Your task to perform on an android device: Open my contact list Image 0: 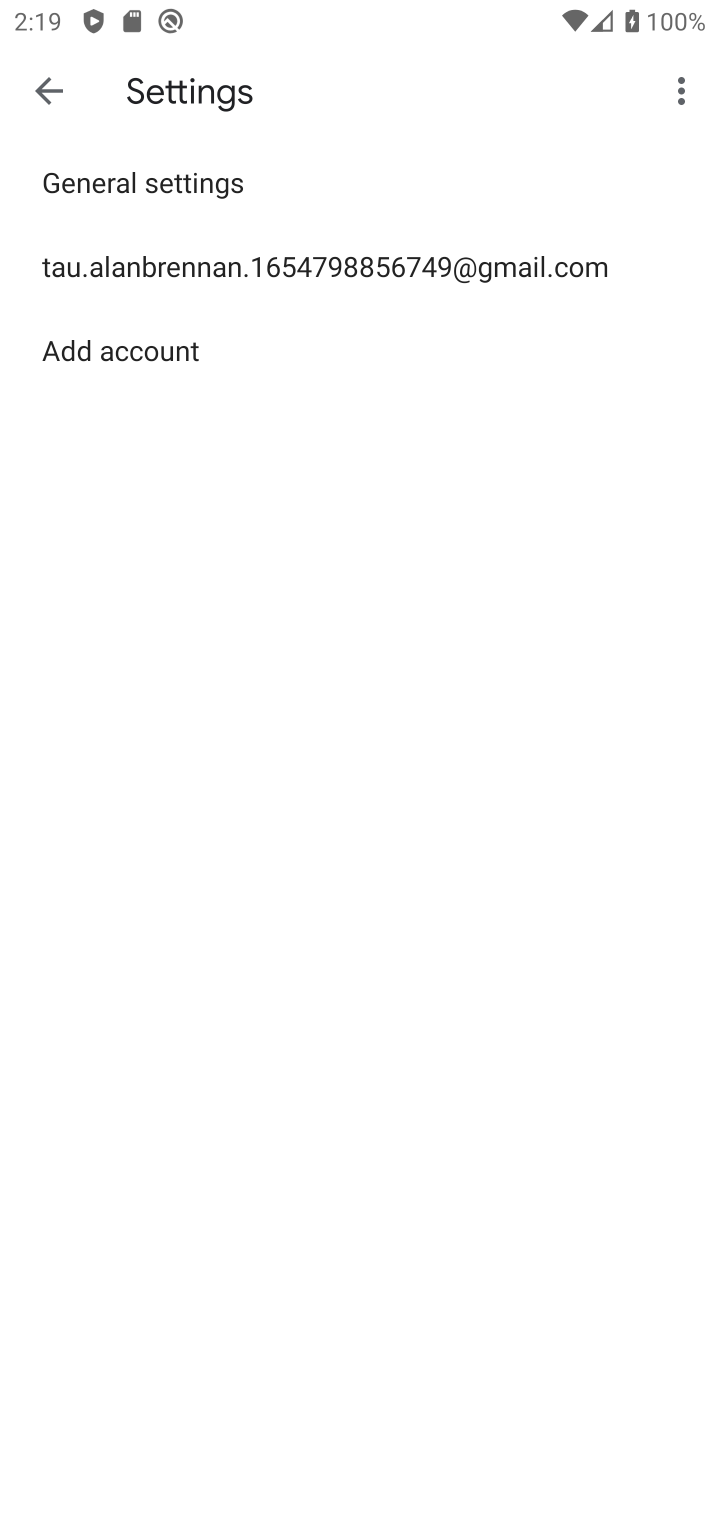
Step 0: click (44, 85)
Your task to perform on an android device: Open my contact list Image 1: 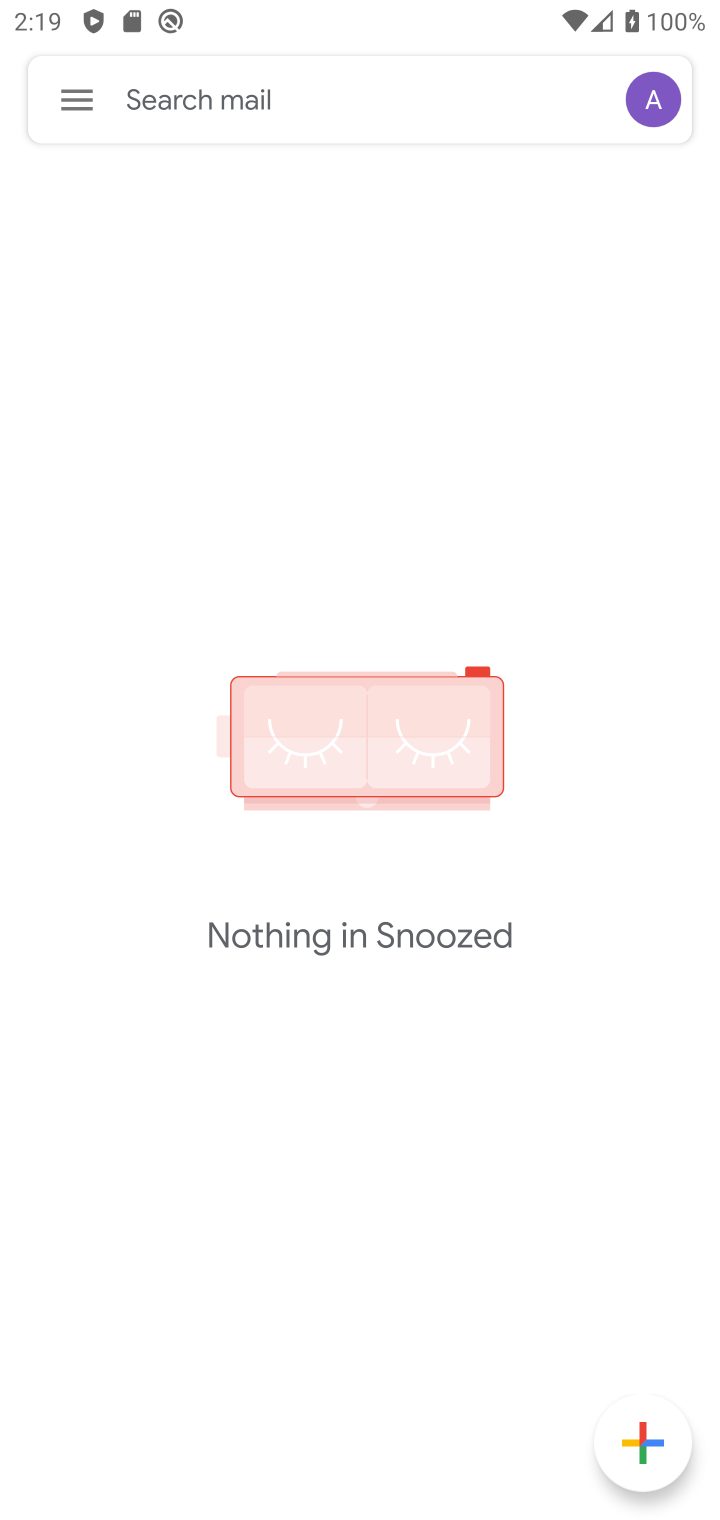
Step 1: press back button
Your task to perform on an android device: Open my contact list Image 2: 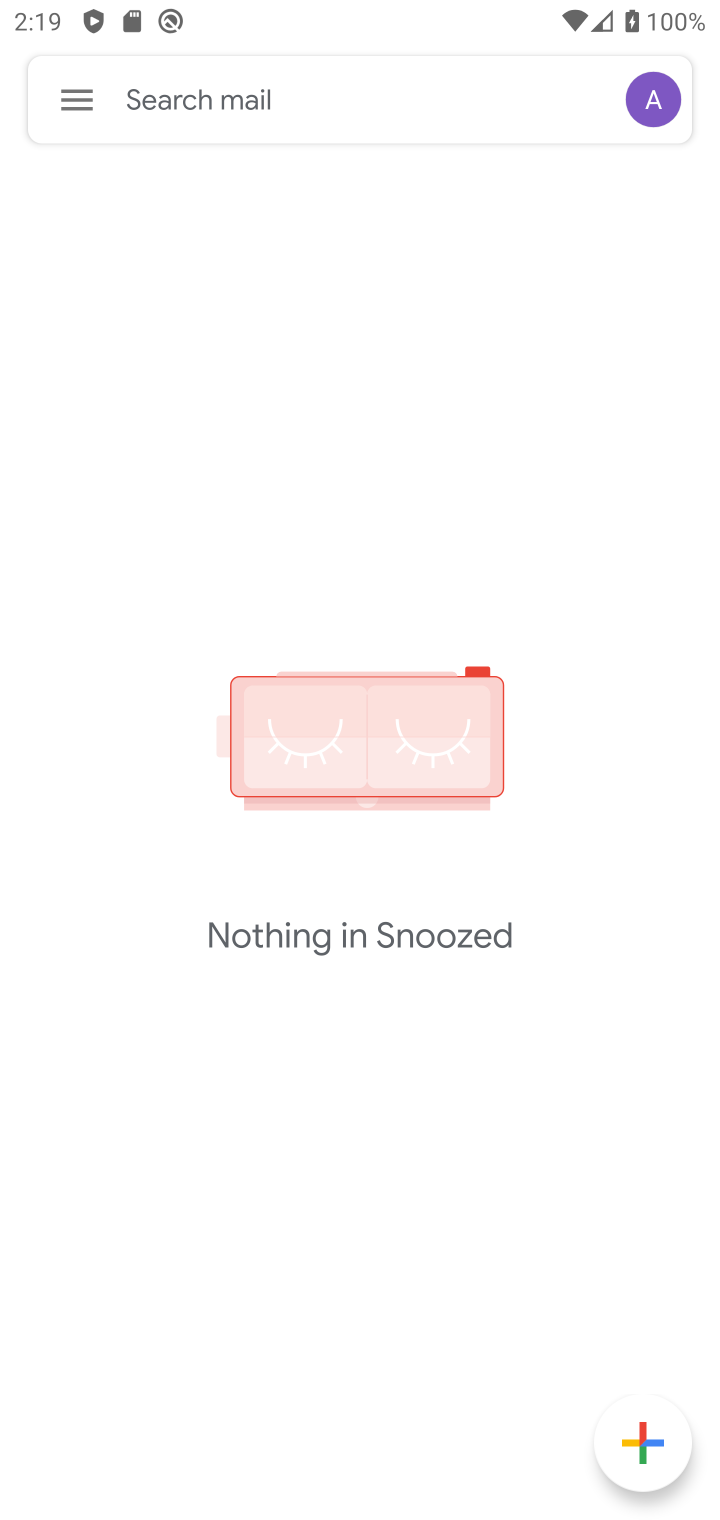
Step 2: press back button
Your task to perform on an android device: Open my contact list Image 3: 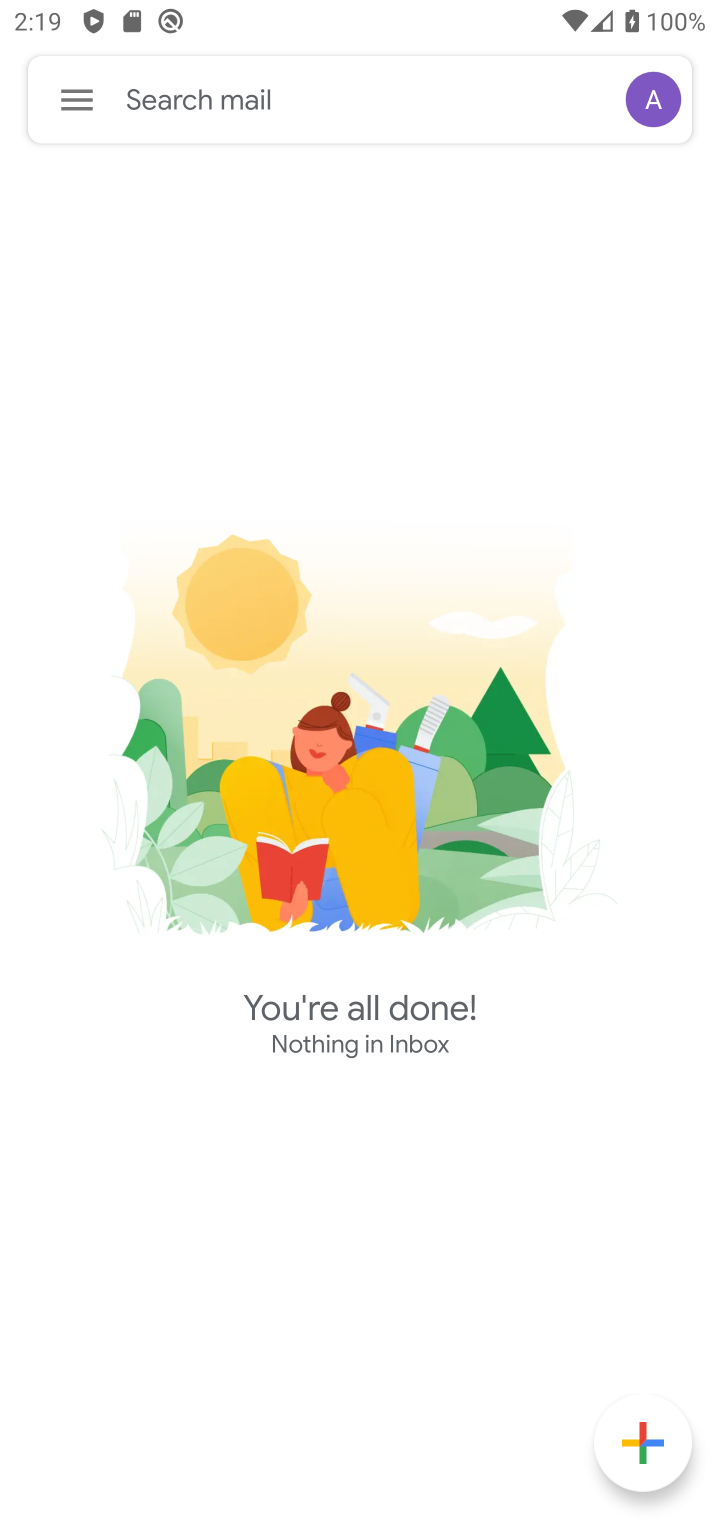
Step 3: press back button
Your task to perform on an android device: Open my contact list Image 4: 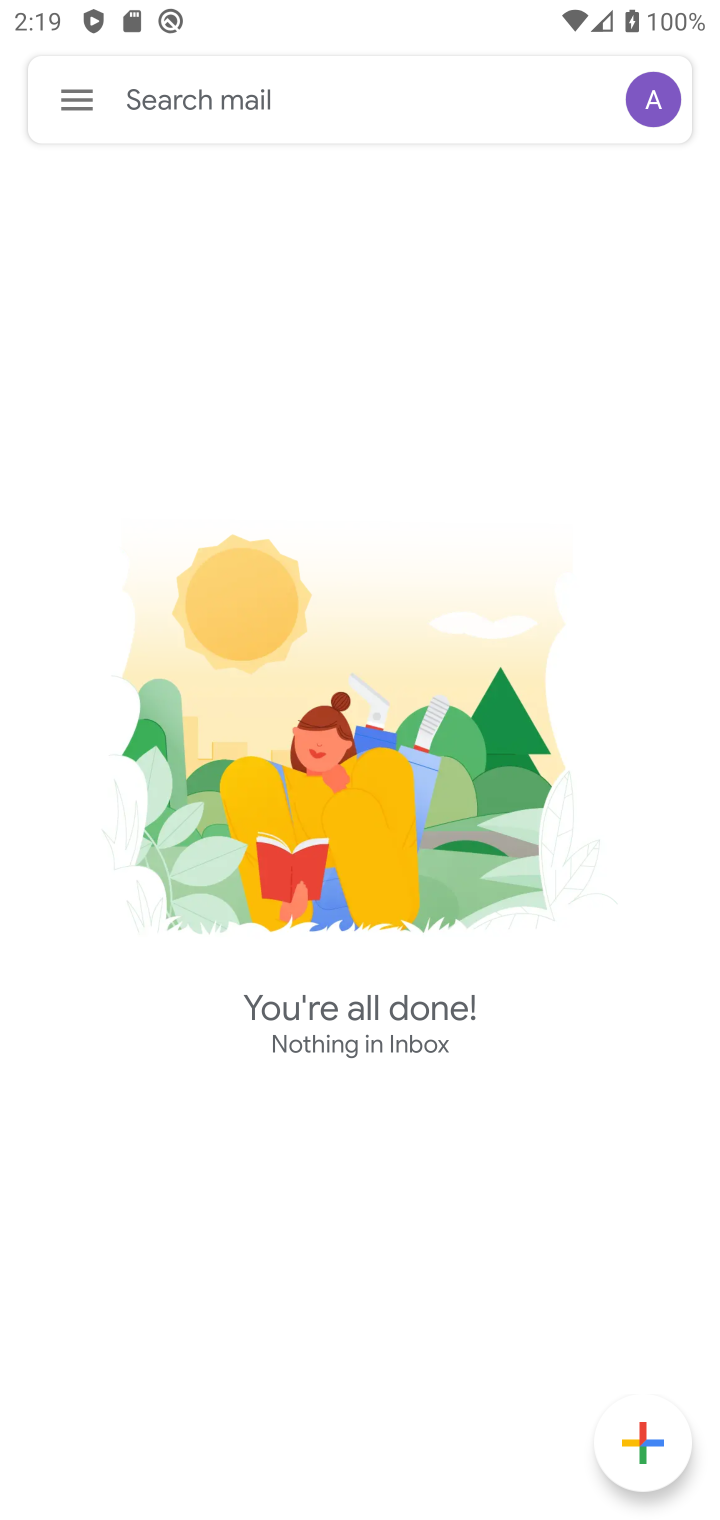
Step 4: click (70, 122)
Your task to perform on an android device: Open my contact list Image 5: 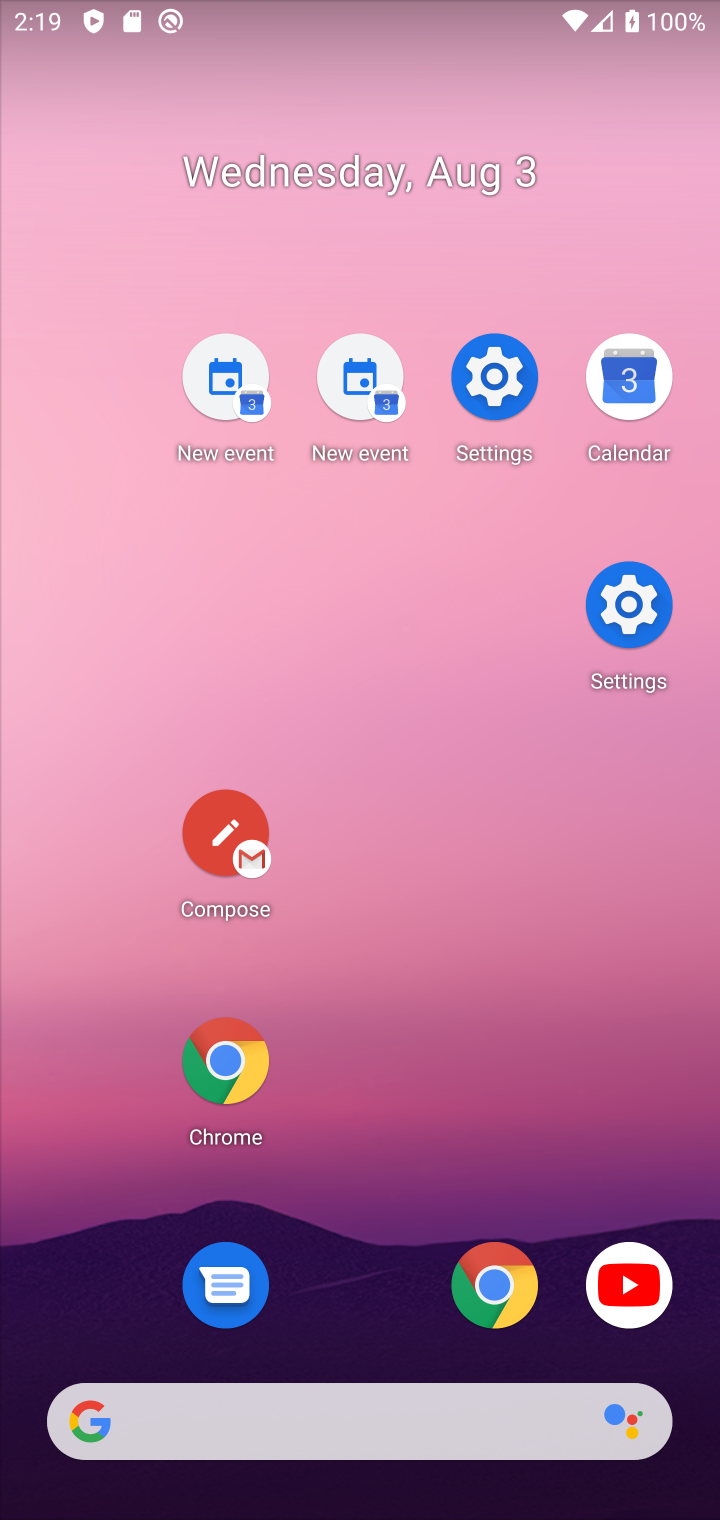
Step 5: click (270, 760)
Your task to perform on an android device: Open my contact list Image 6: 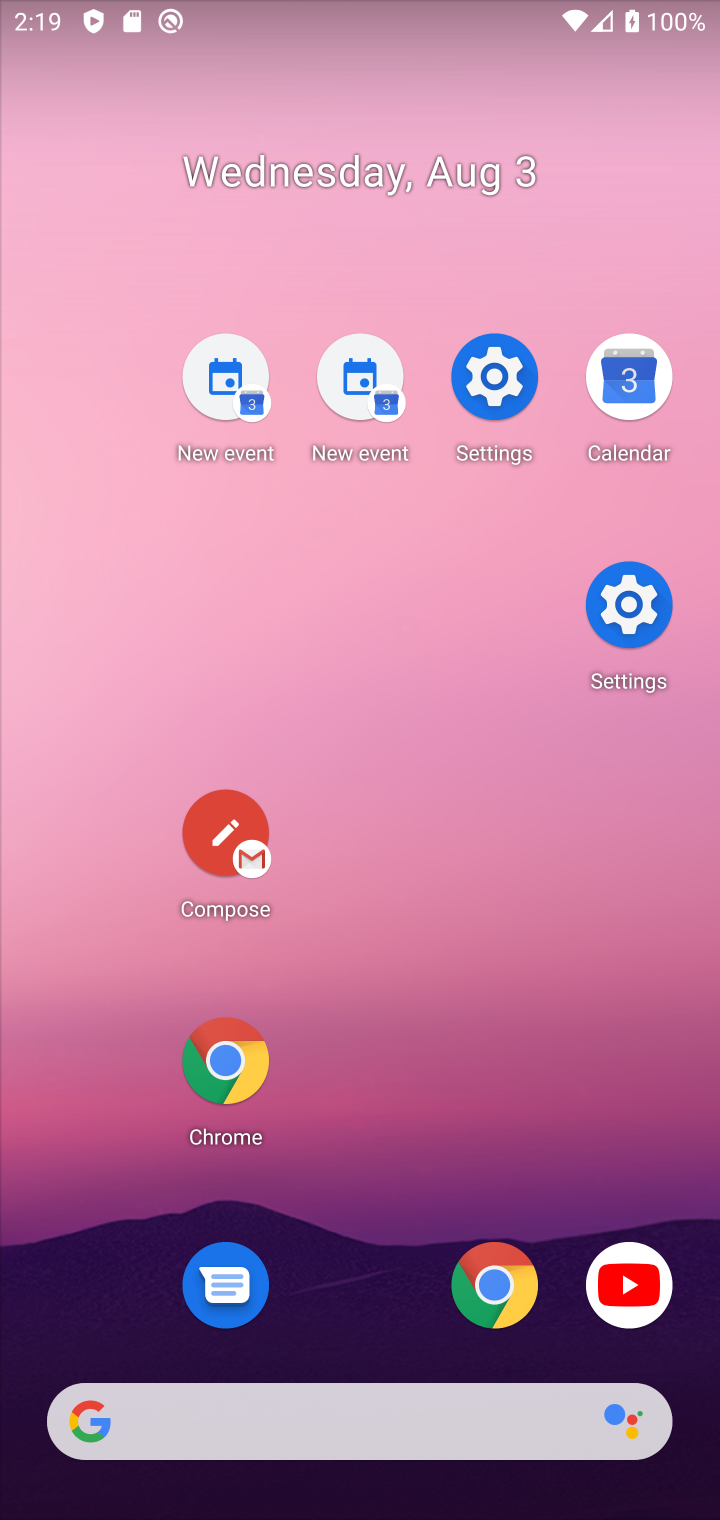
Step 6: drag from (268, 137) to (226, 310)
Your task to perform on an android device: Open my contact list Image 7: 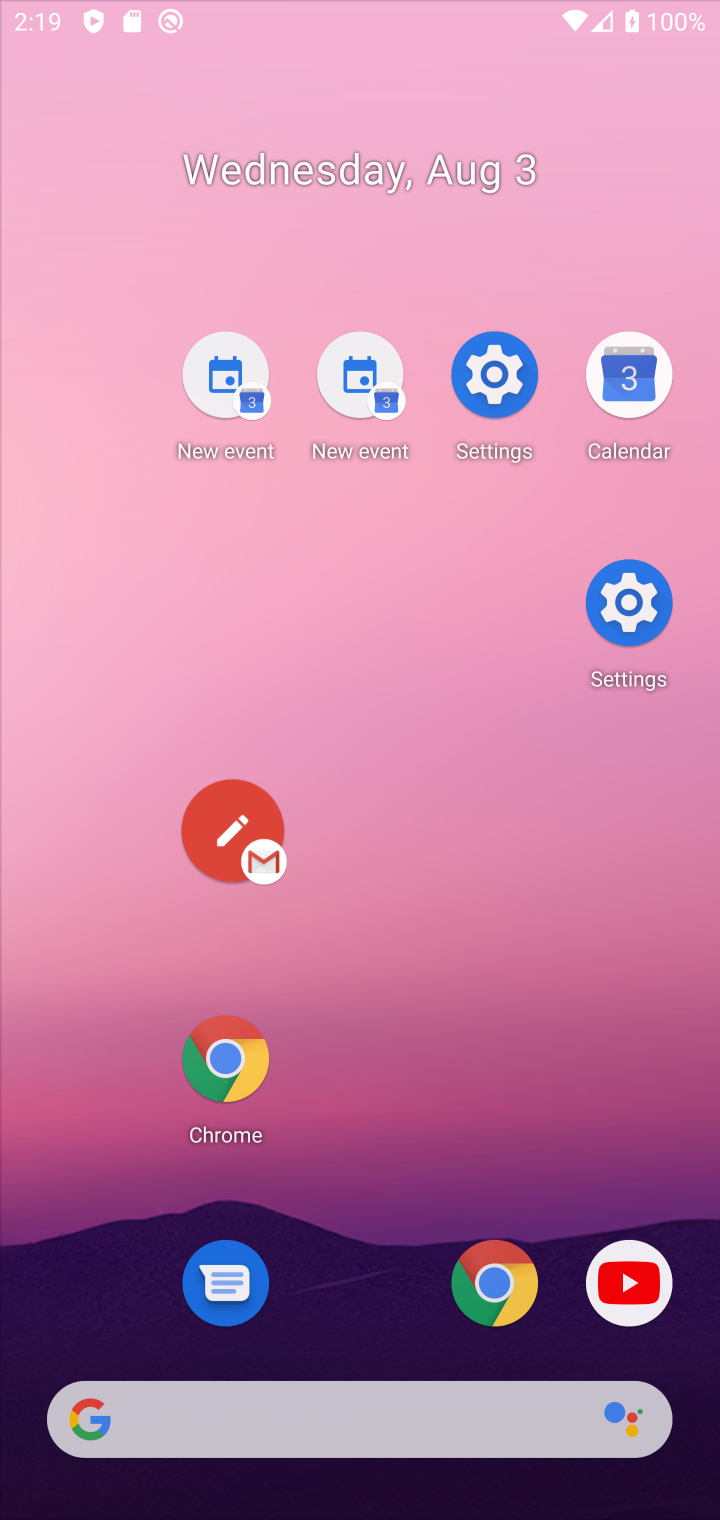
Step 7: drag from (125, 156) to (194, 204)
Your task to perform on an android device: Open my contact list Image 8: 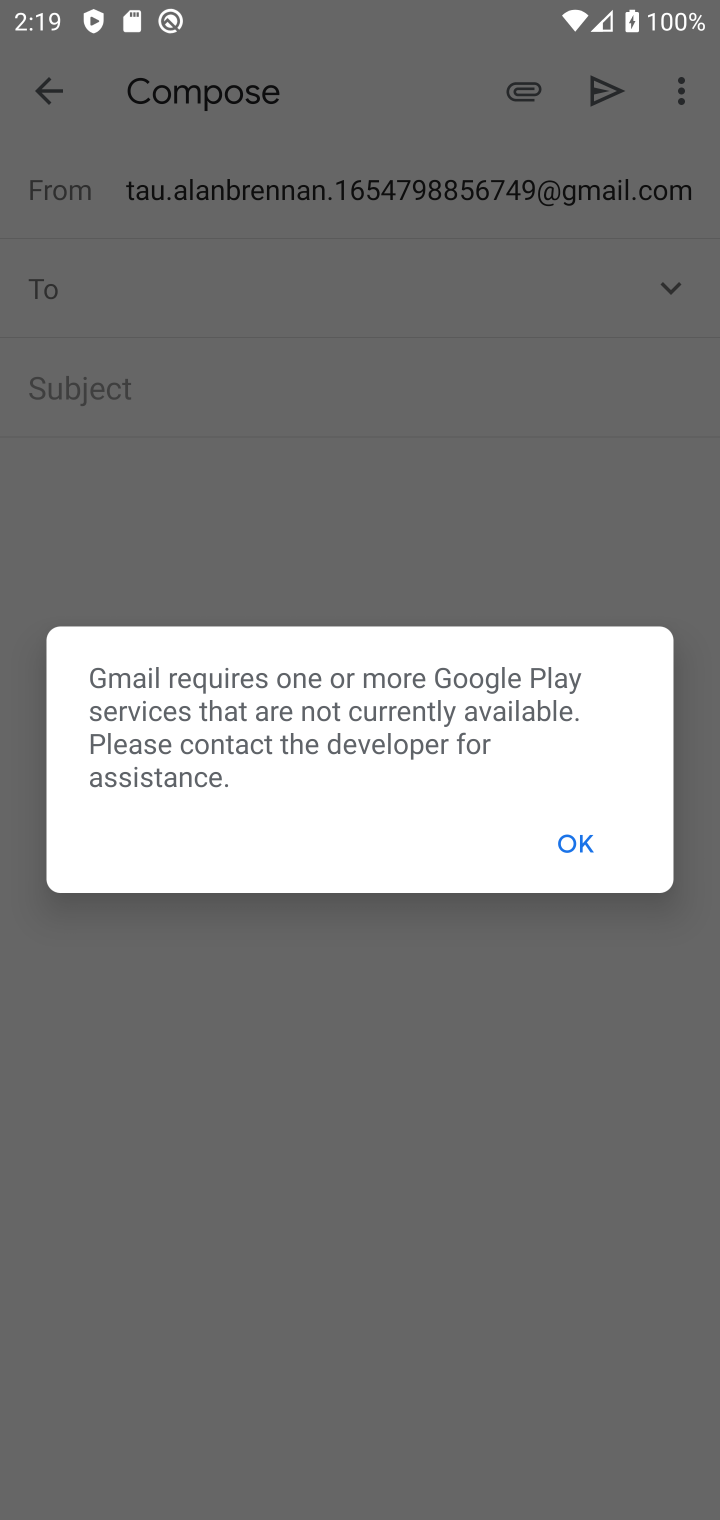
Step 8: click (565, 825)
Your task to perform on an android device: Open my contact list Image 9: 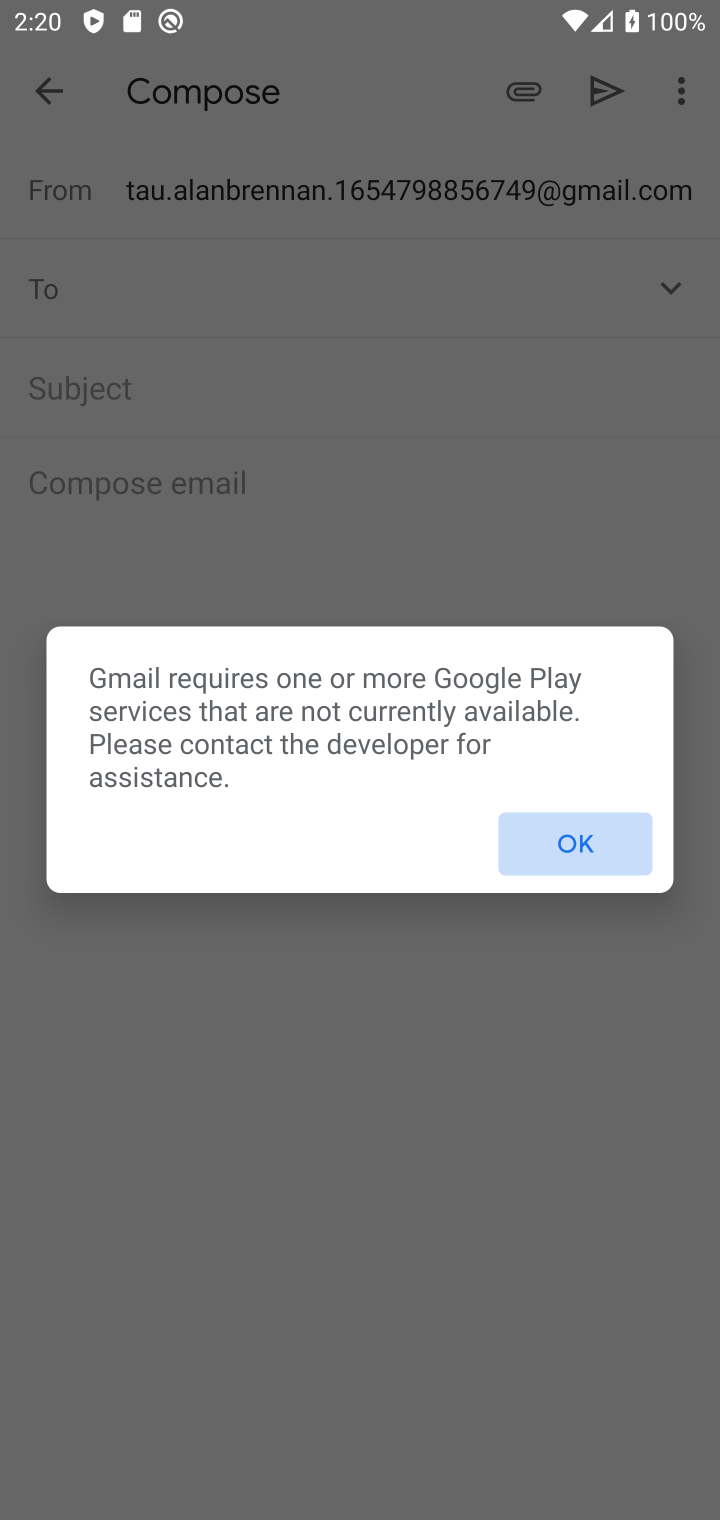
Step 9: click (570, 823)
Your task to perform on an android device: Open my contact list Image 10: 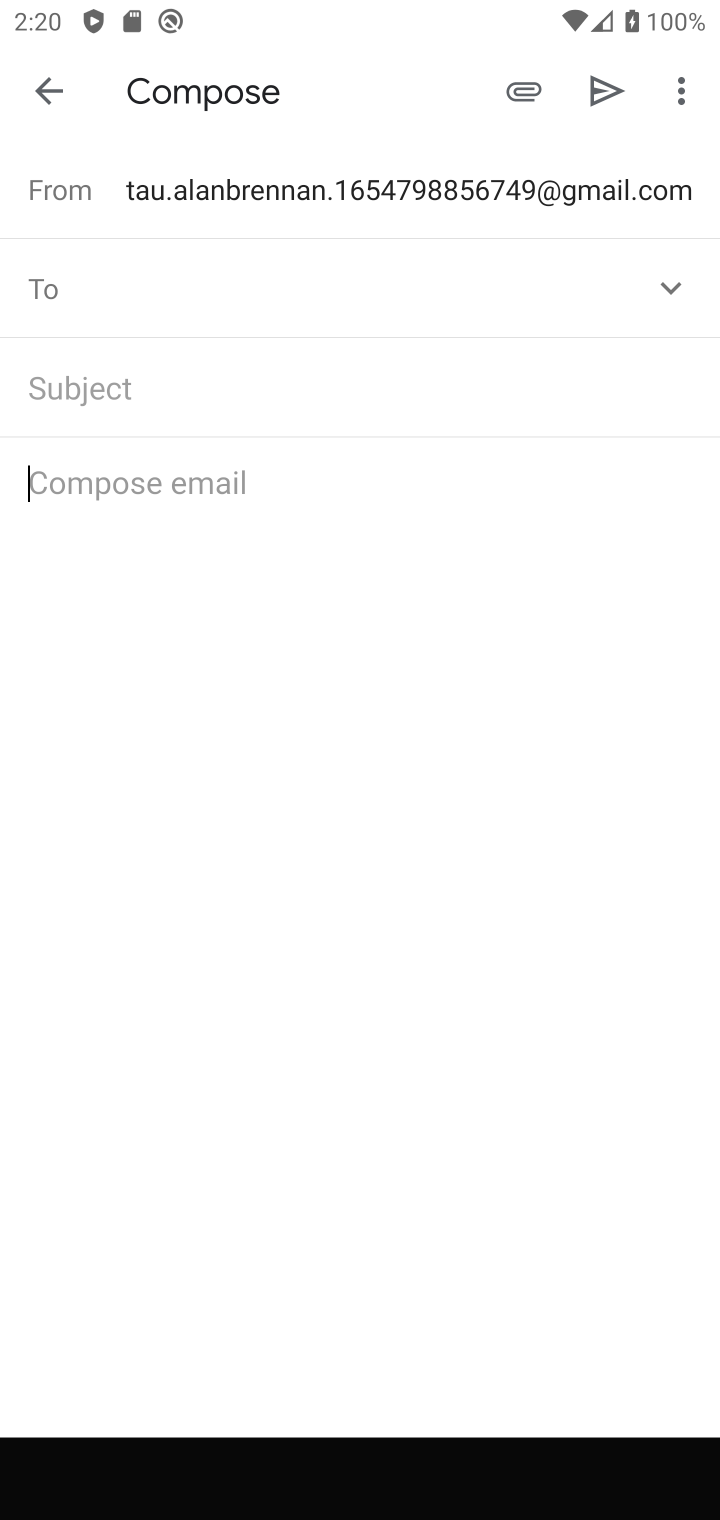
Step 10: click (61, 55)
Your task to perform on an android device: Open my contact list Image 11: 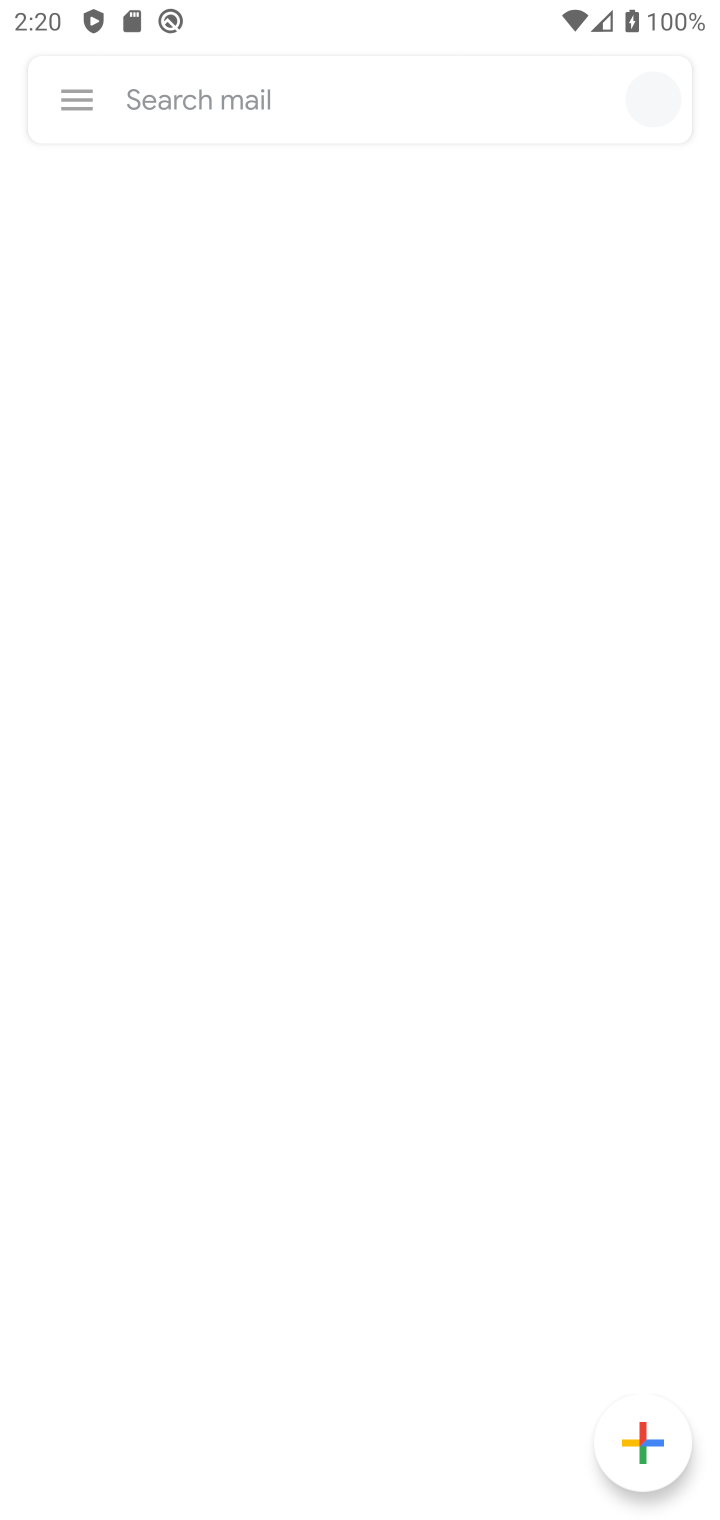
Step 11: press home button
Your task to perform on an android device: Open my contact list Image 12: 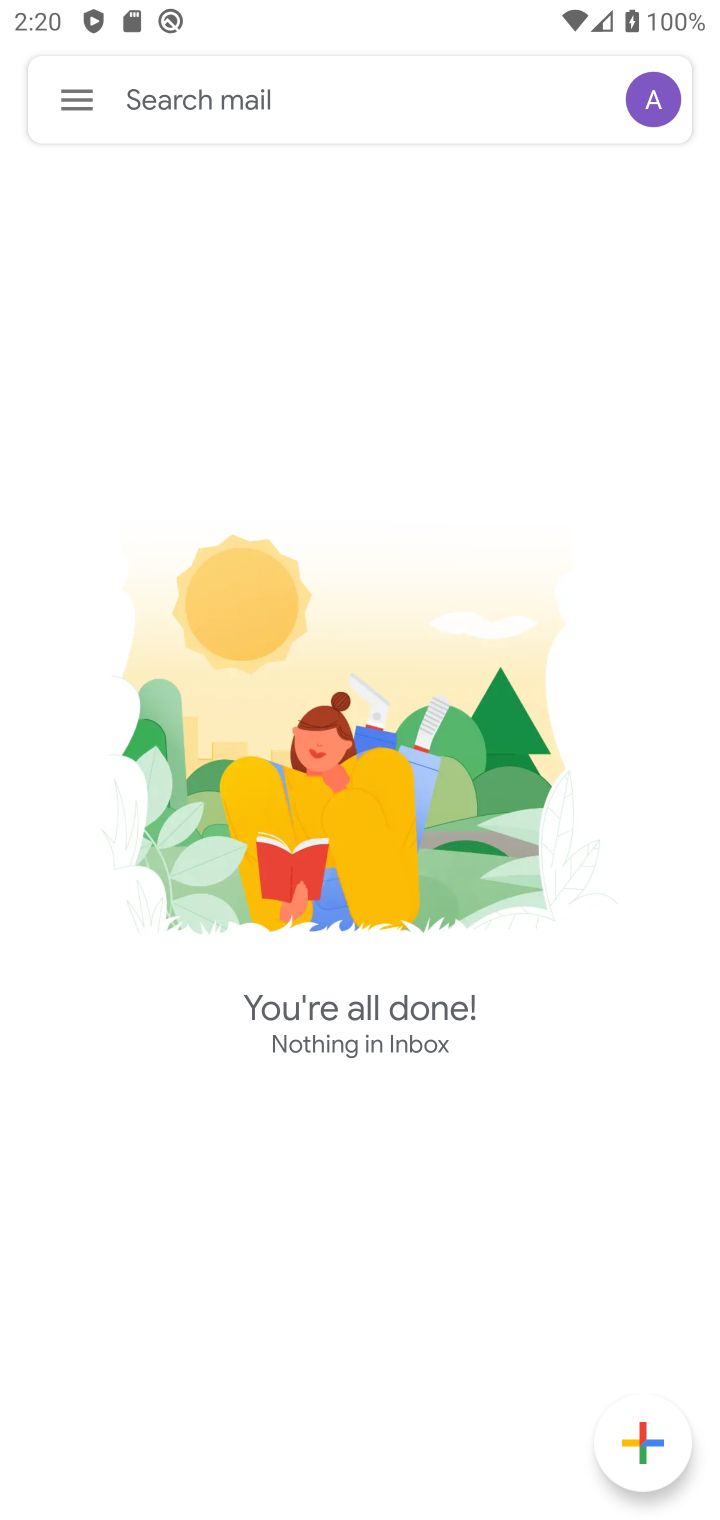
Step 12: press back button
Your task to perform on an android device: Open my contact list Image 13: 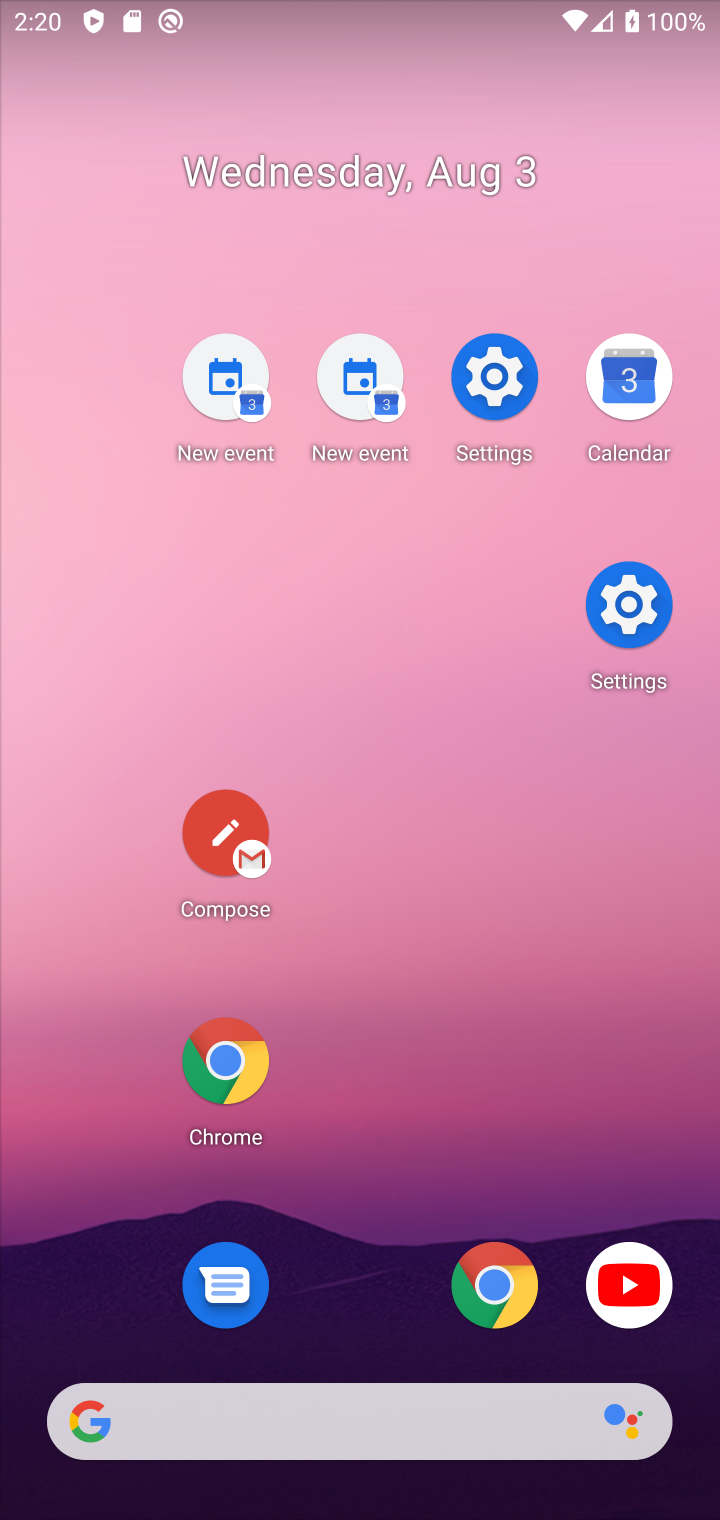
Step 13: click (81, 92)
Your task to perform on an android device: Open my contact list Image 14: 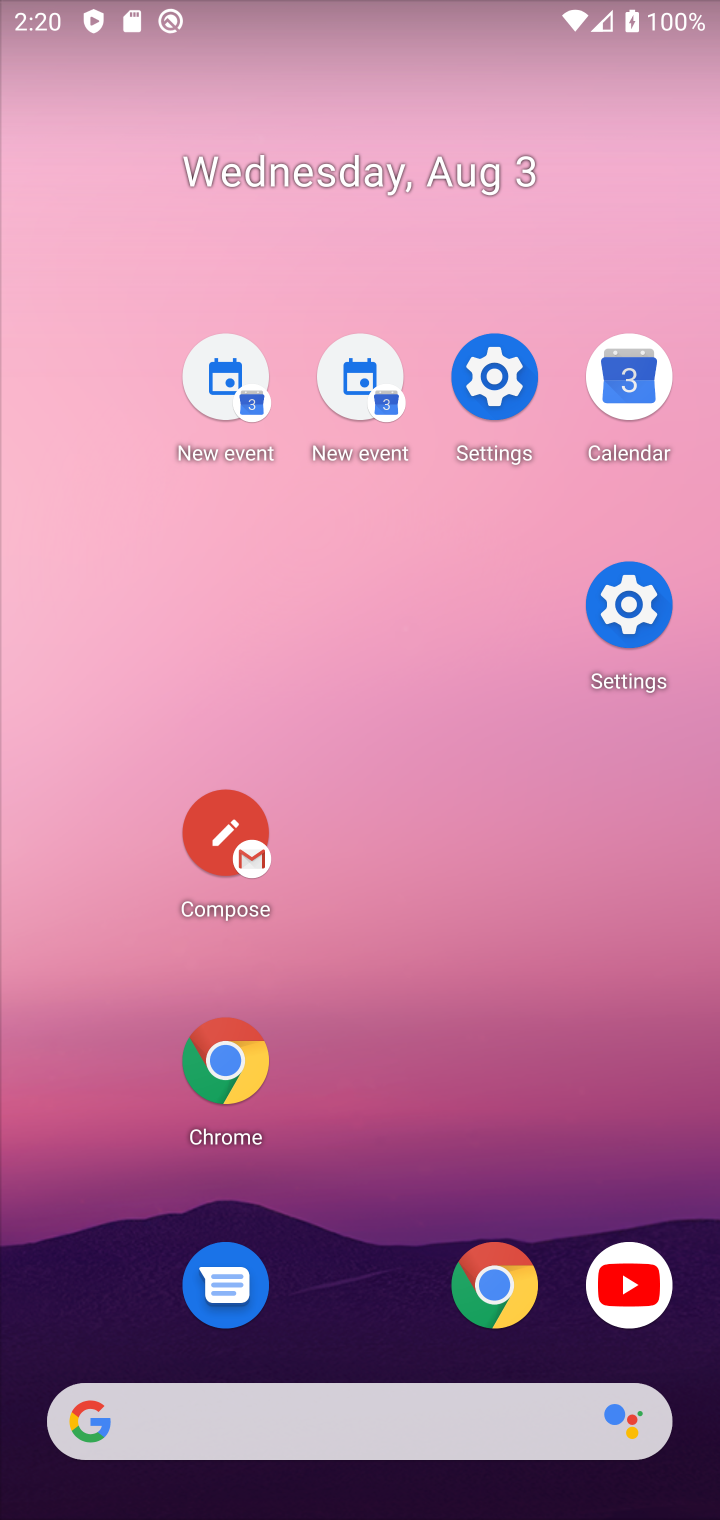
Step 14: drag from (394, 962) to (94, 396)
Your task to perform on an android device: Open my contact list Image 15: 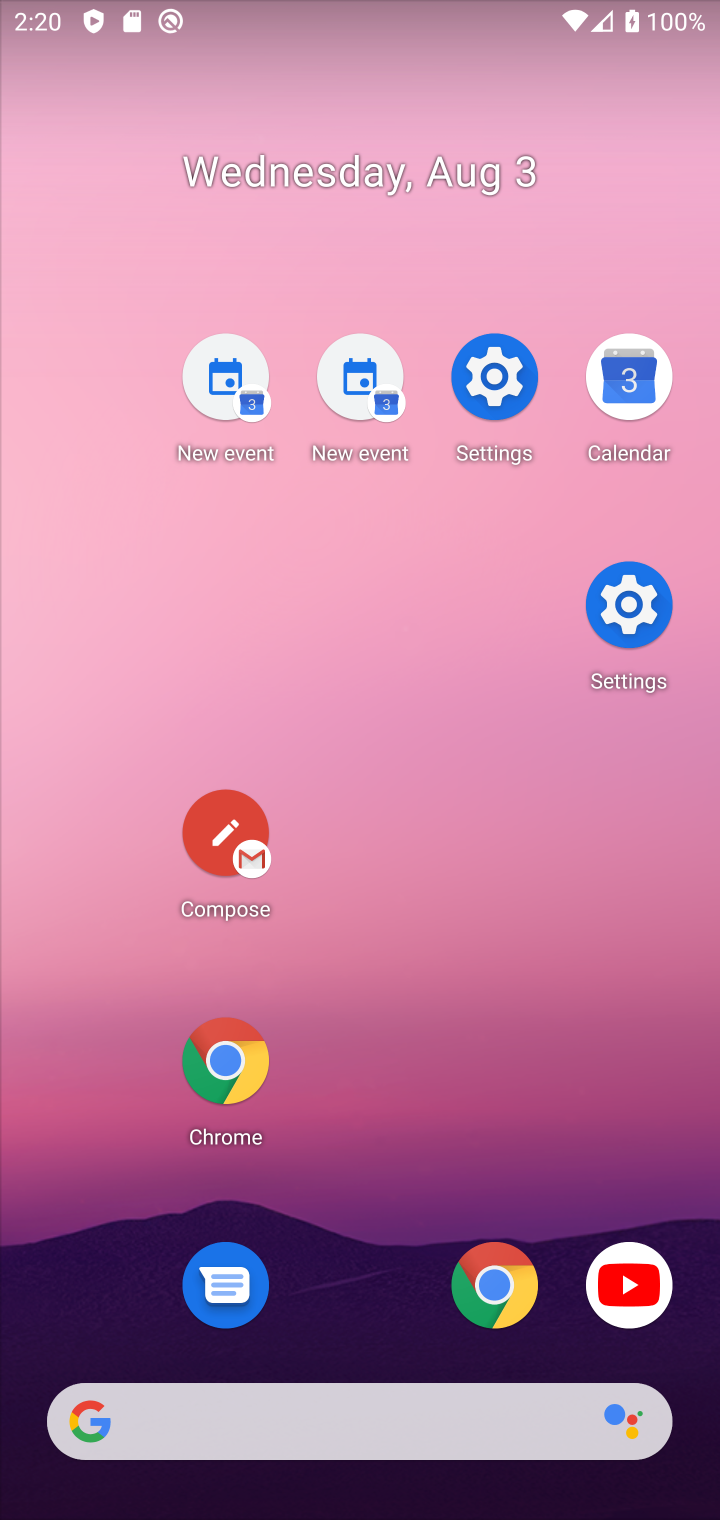
Step 15: drag from (410, 309) to (427, 204)
Your task to perform on an android device: Open my contact list Image 16: 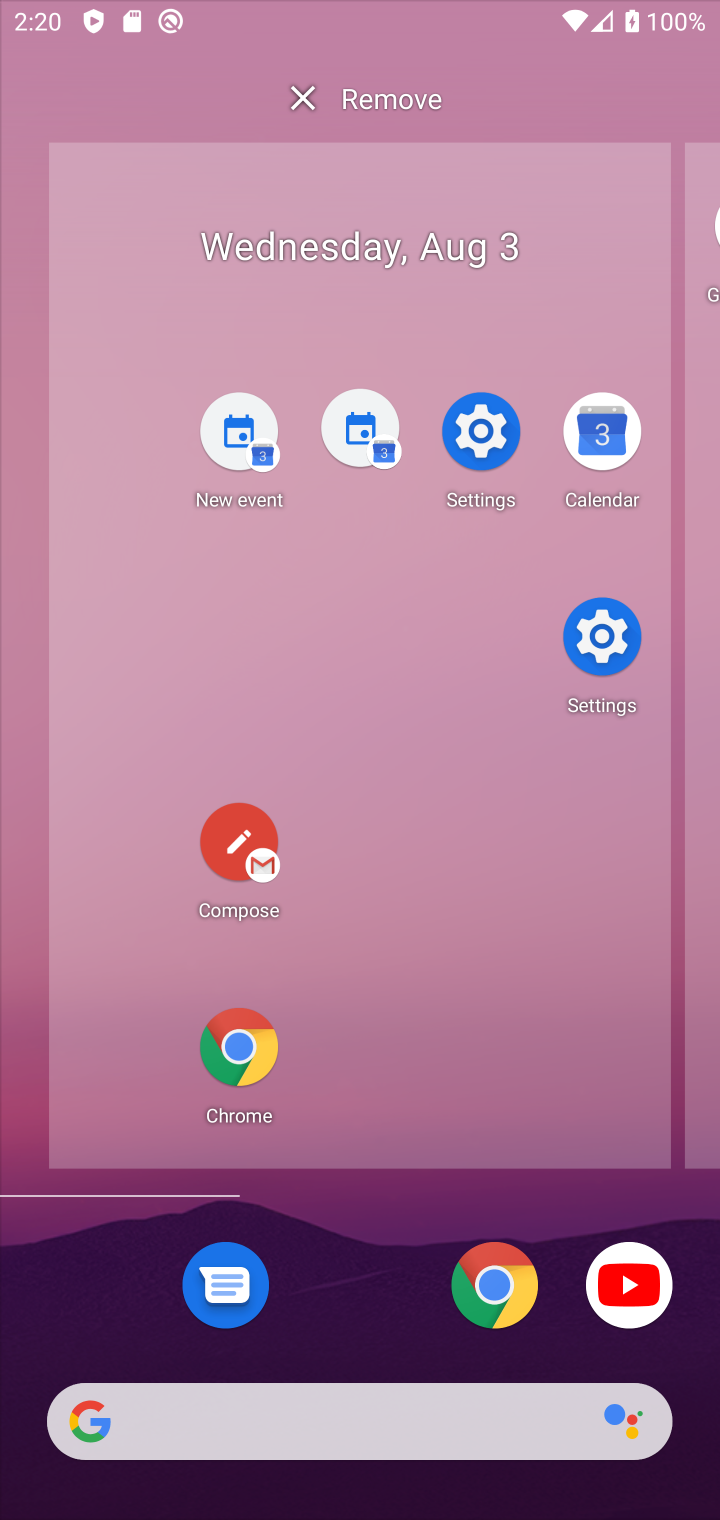
Step 16: click (174, 116)
Your task to perform on an android device: Open my contact list Image 17: 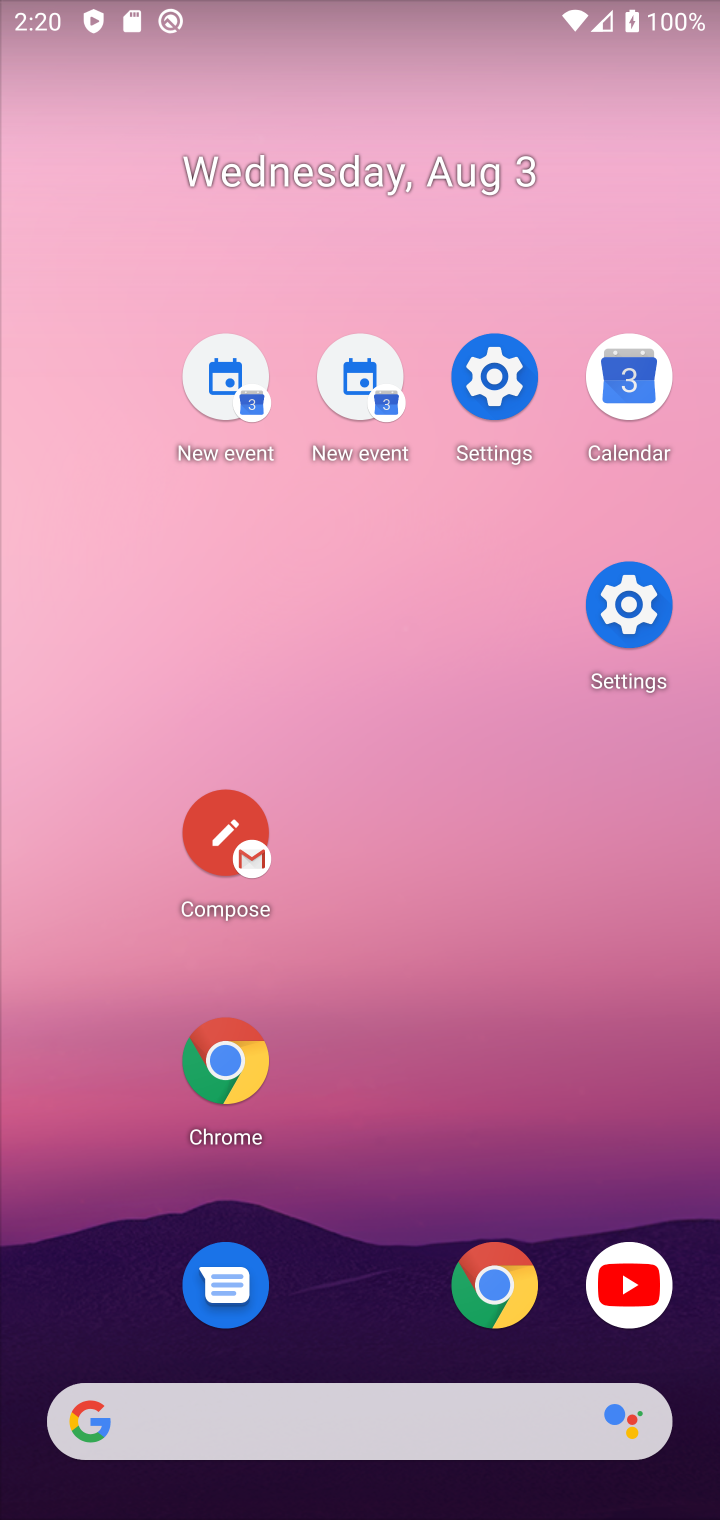
Step 17: drag from (371, 689) to (331, 268)
Your task to perform on an android device: Open my contact list Image 18: 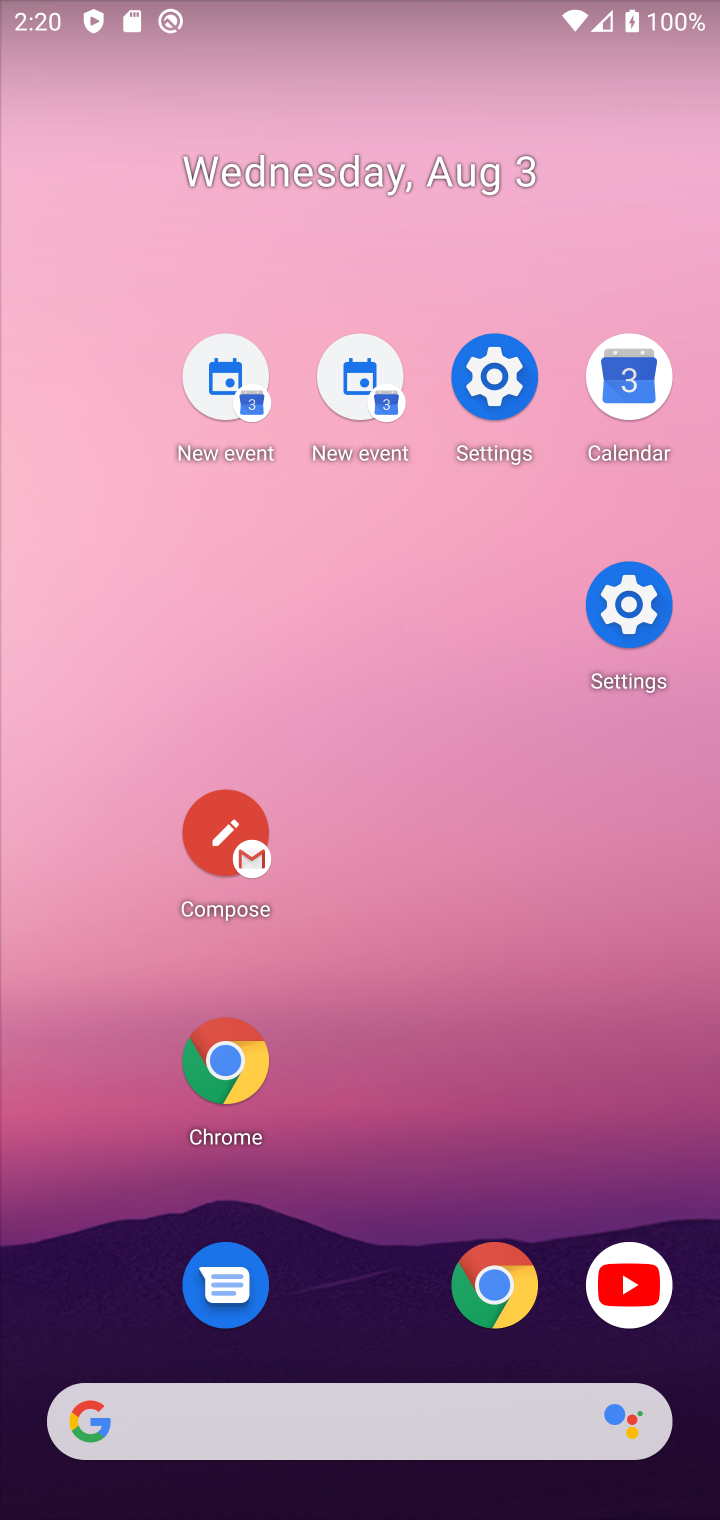
Step 18: drag from (251, 621) to (287, 355)
Your task to perform on an android device: Open my contact list Image 19: 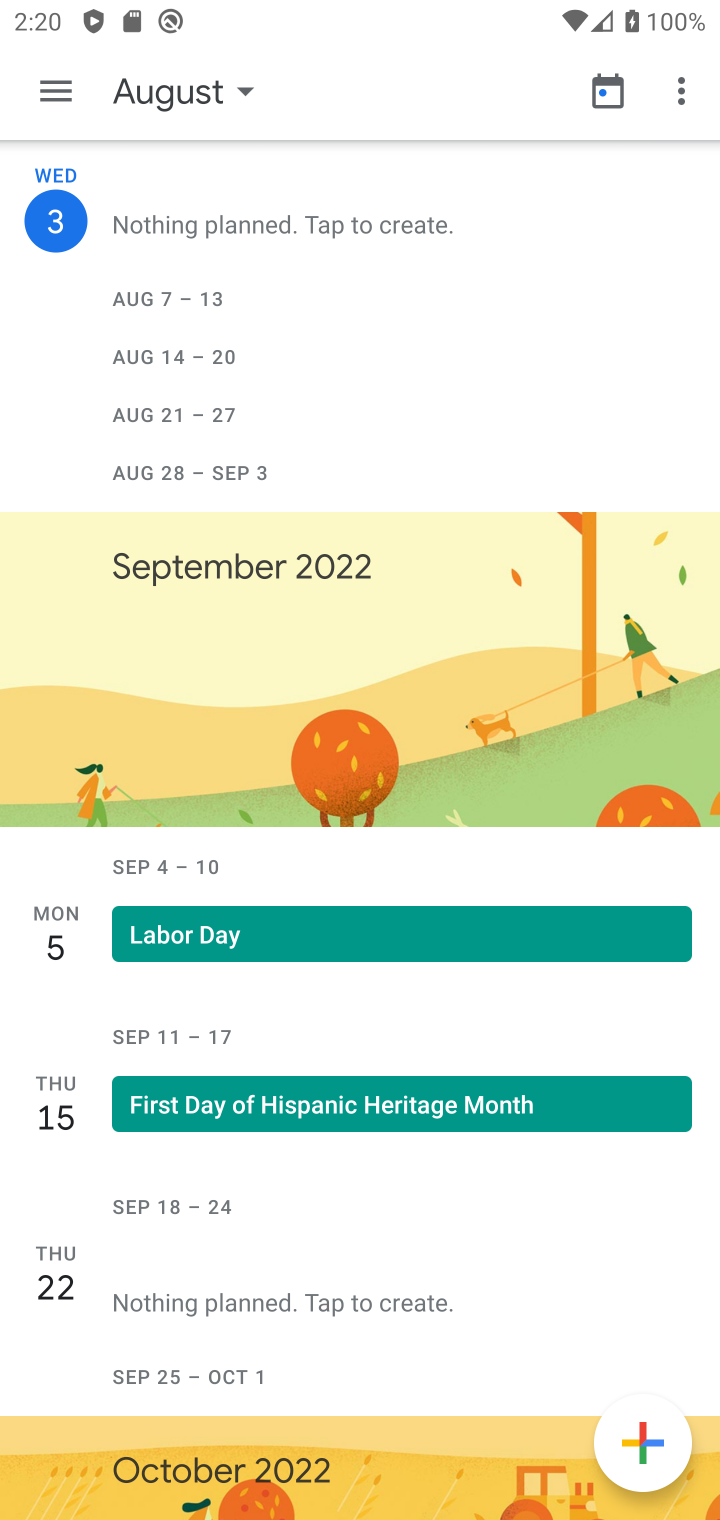
Step 19: press back button
Your task to perform on an android device: Open my contact list Image 20: 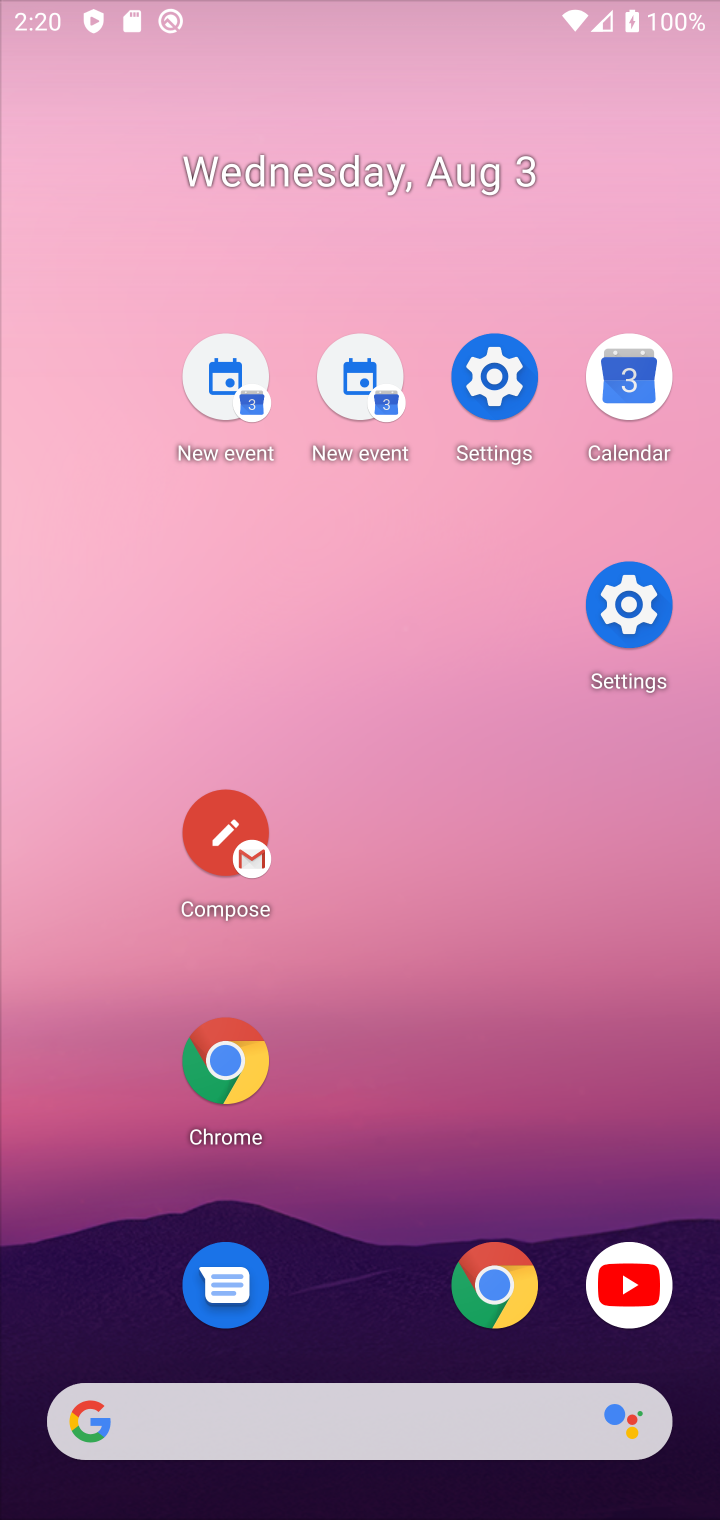
Step 20: press home button
Your task to perform on an android device: Open my contact list Image 21: 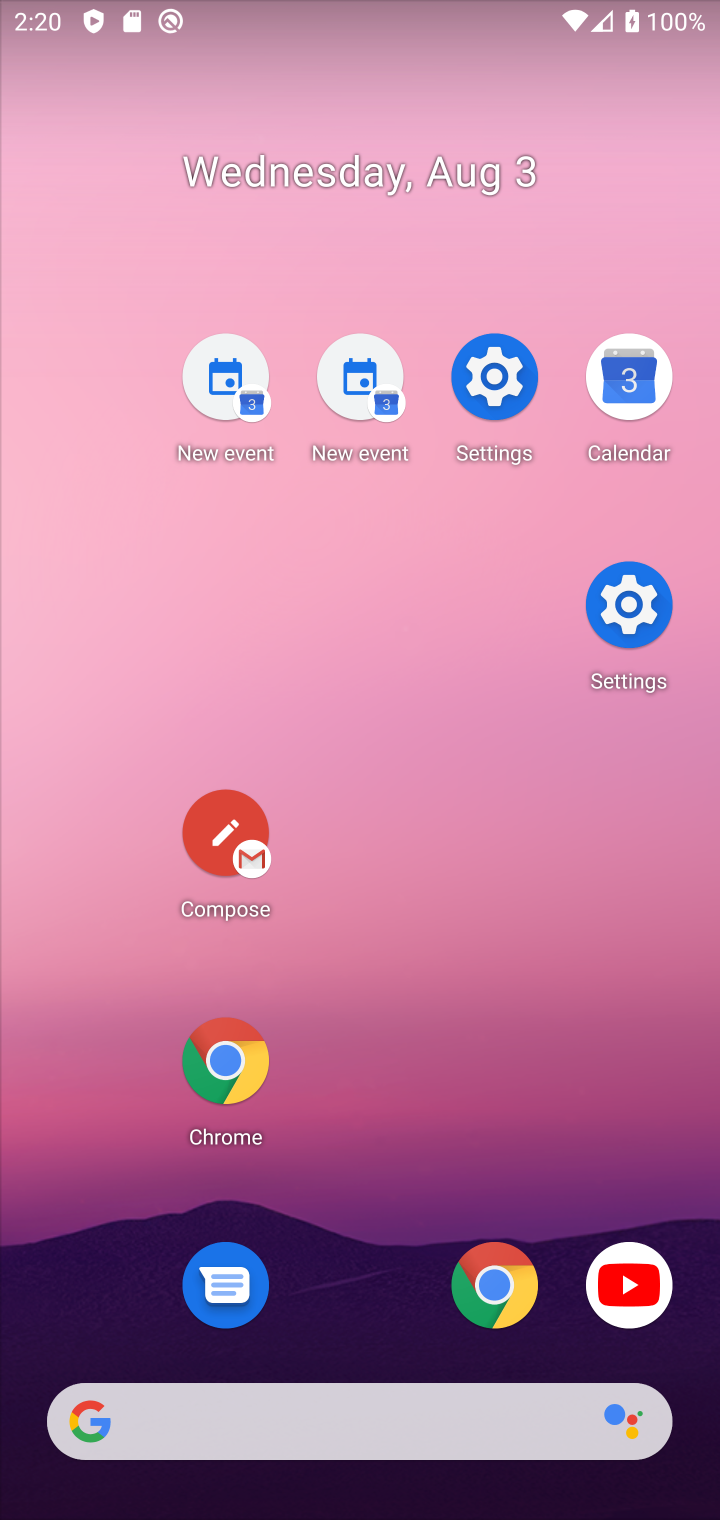
Step 21: drag from (274, 693) to (273, 443)
Your task to perform on an android device: Open my contact list Image 22: 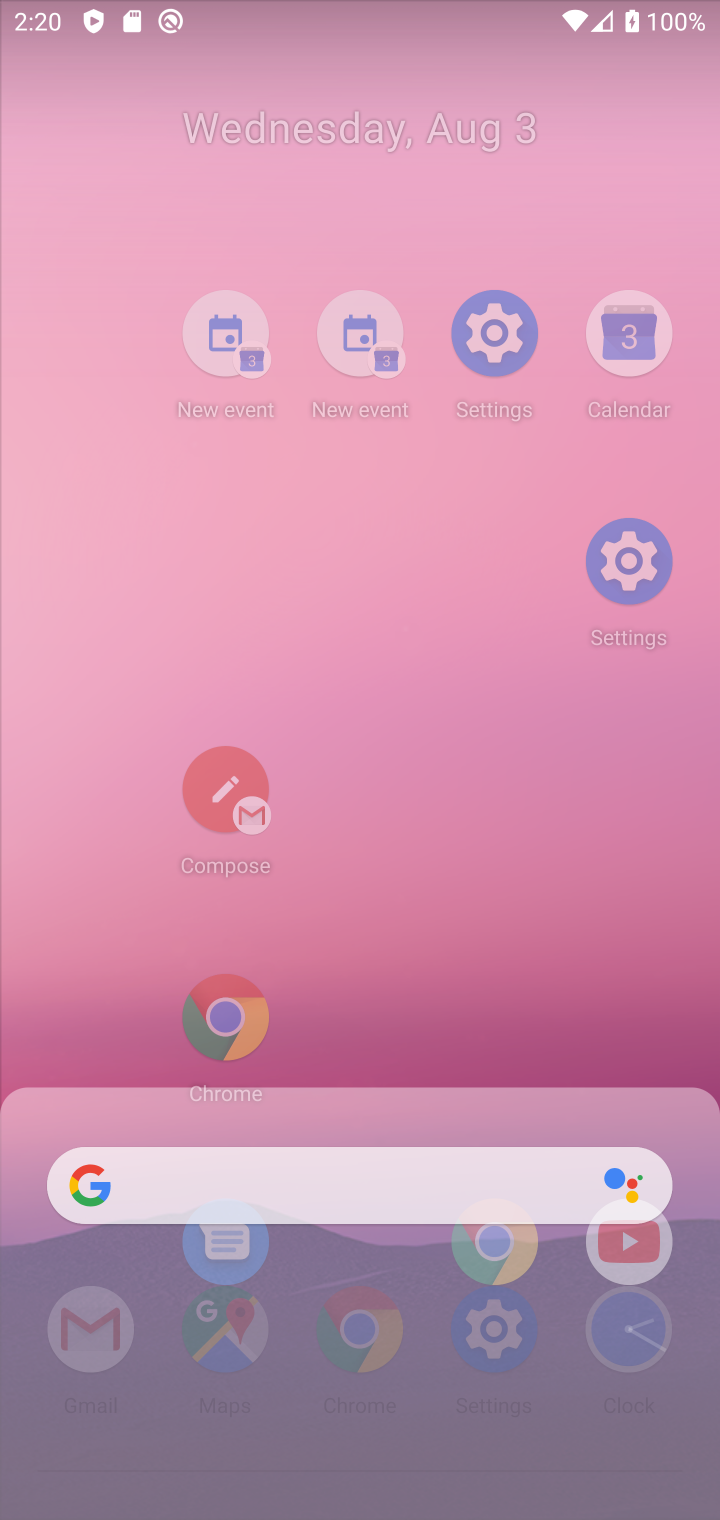
Step 22: drag from (363, 516) to (319, 273)
Your task to perform on an android device: Open my contact list Image 23: 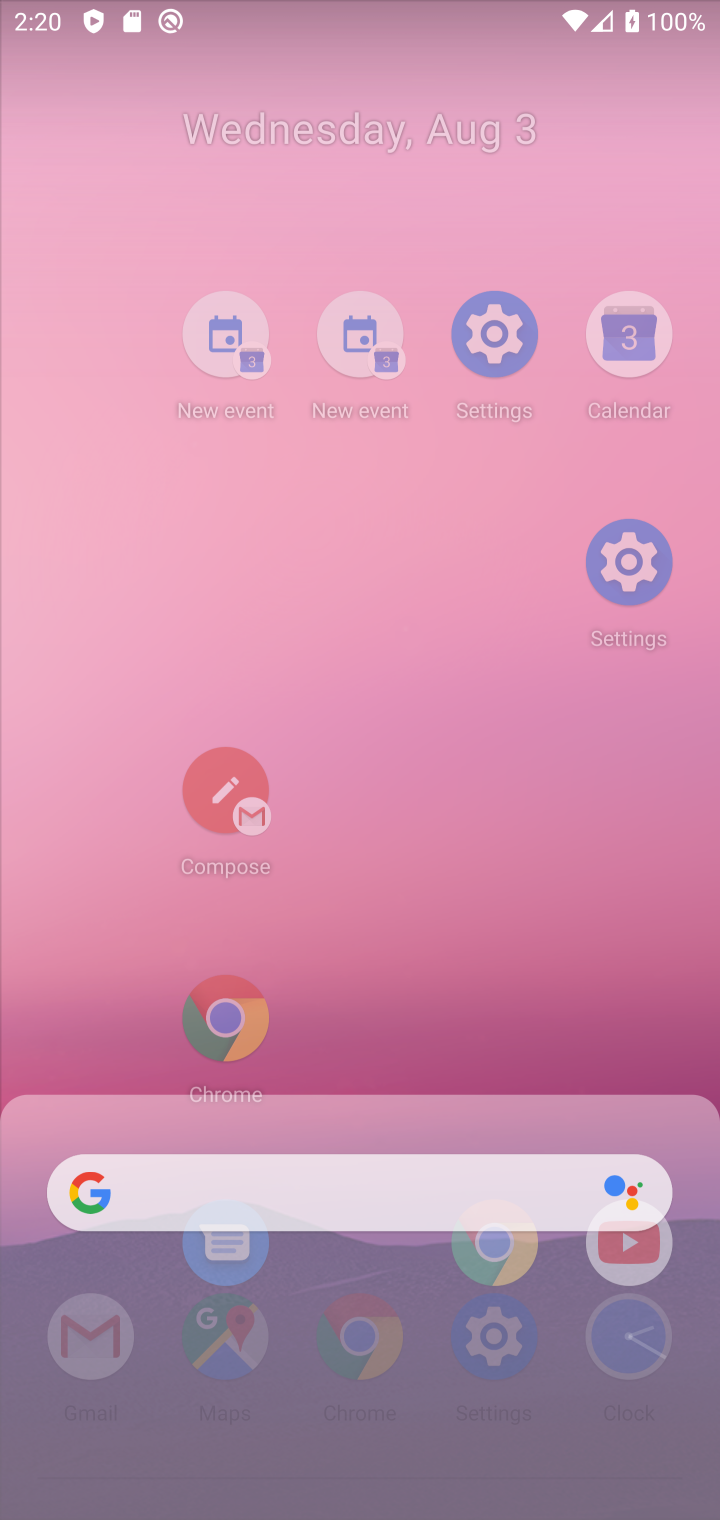
Step 23: click (302, 405)
Your task to perform on an android device: Open my contact list Image 24: 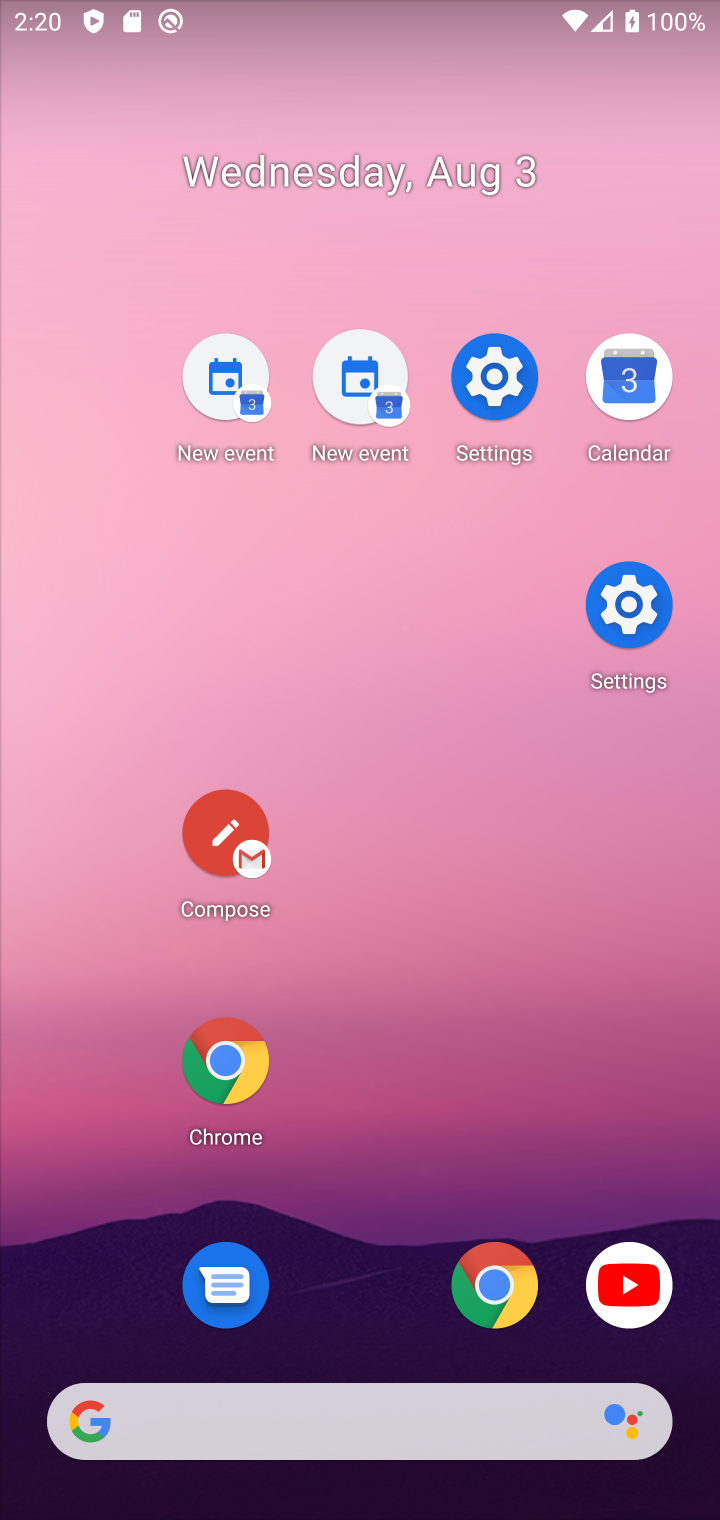
Step 24: drag from (154, 300) to (401, 447)
Your task to perform on an android device: Open my contact list Image 25: 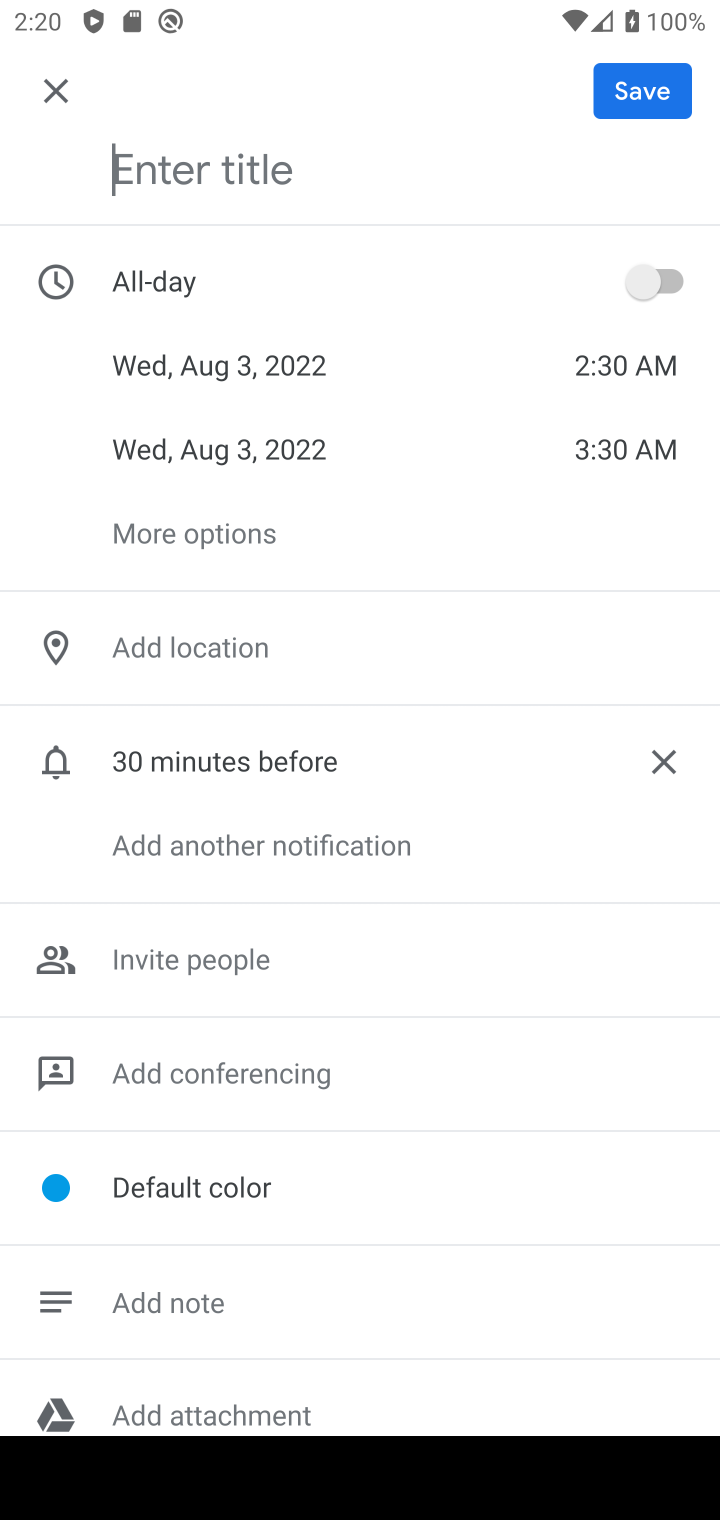
Step 25: click (43, 94)
Your task to perform on an android device: Open my contact list Image 26: 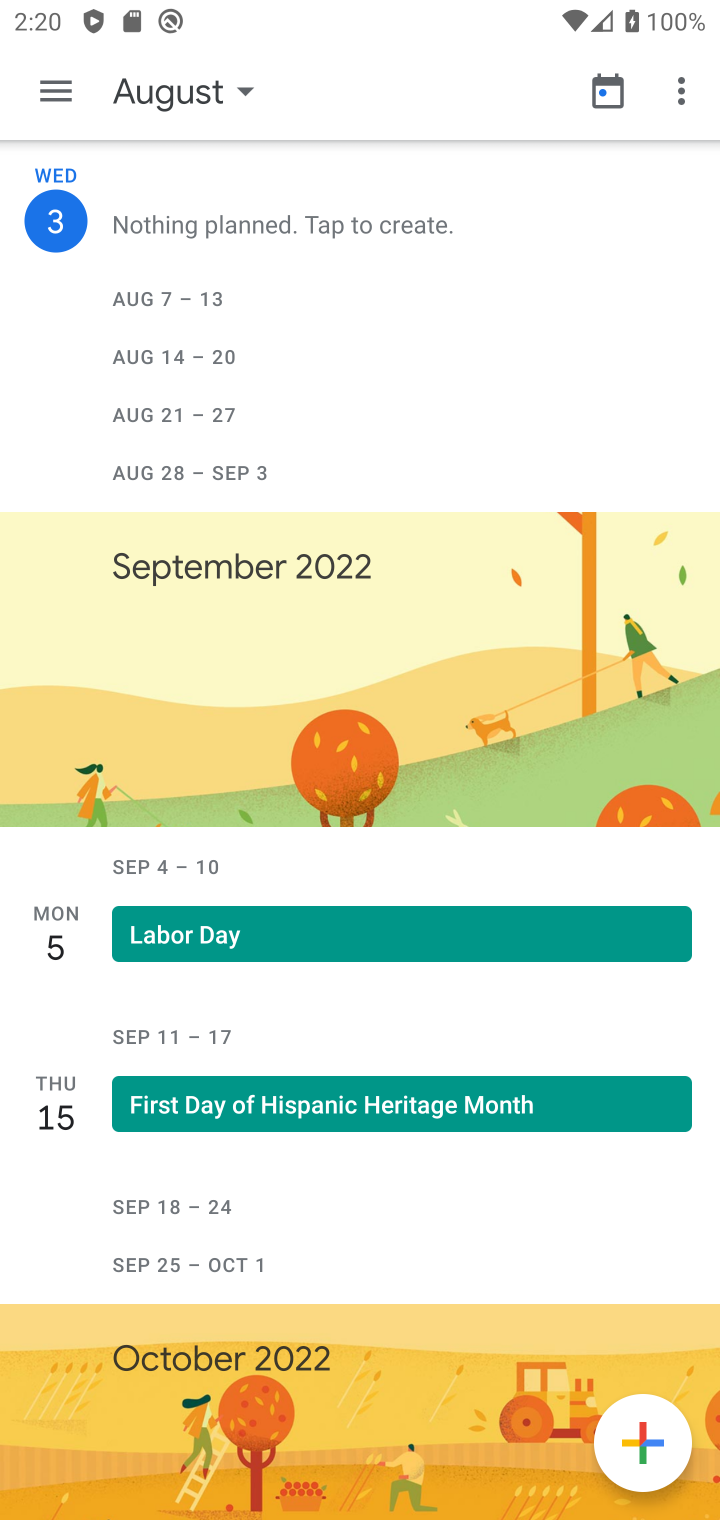
Step 26: press back button
Your task to perform on an android device: Open my contact list Image 27: 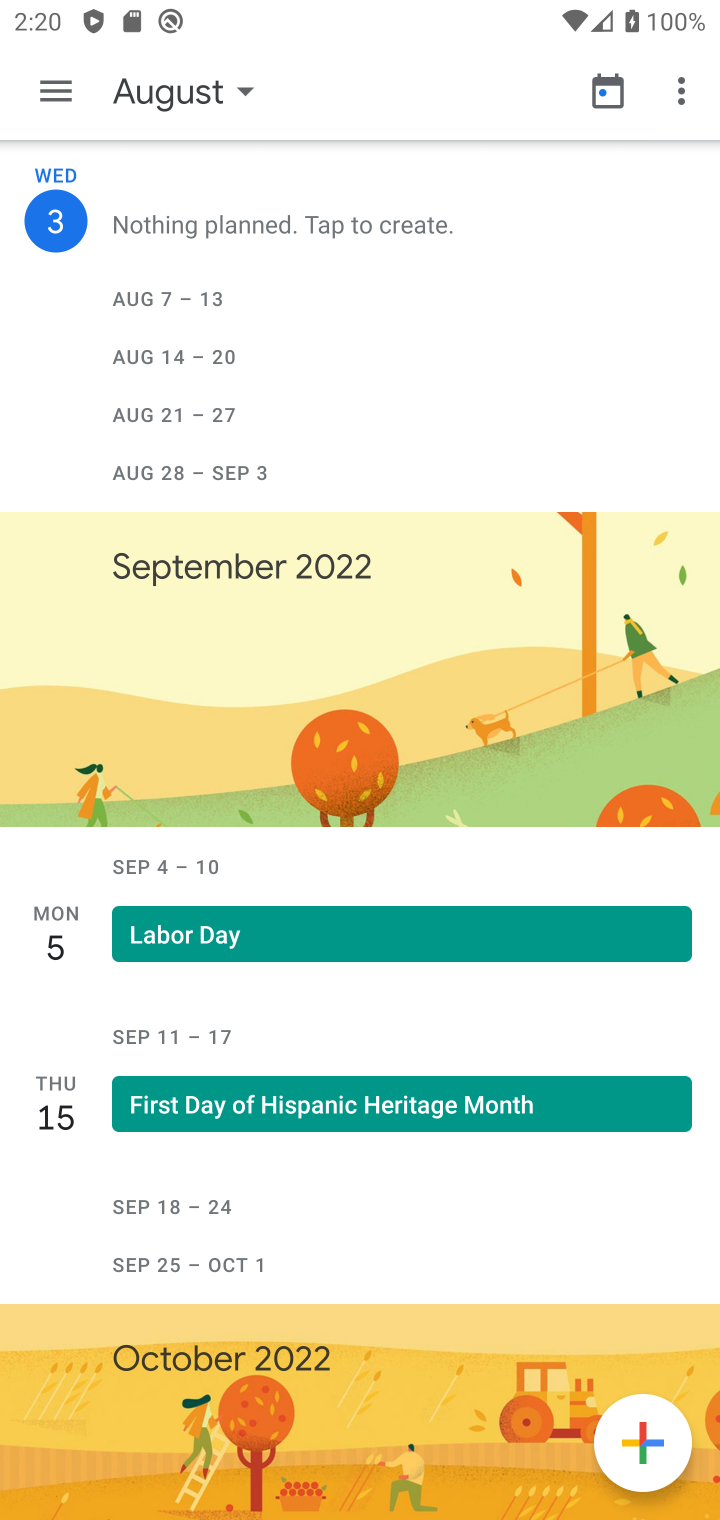
Step 27: press home button
Your task to perform on an android device: Open my contact list Image 28: 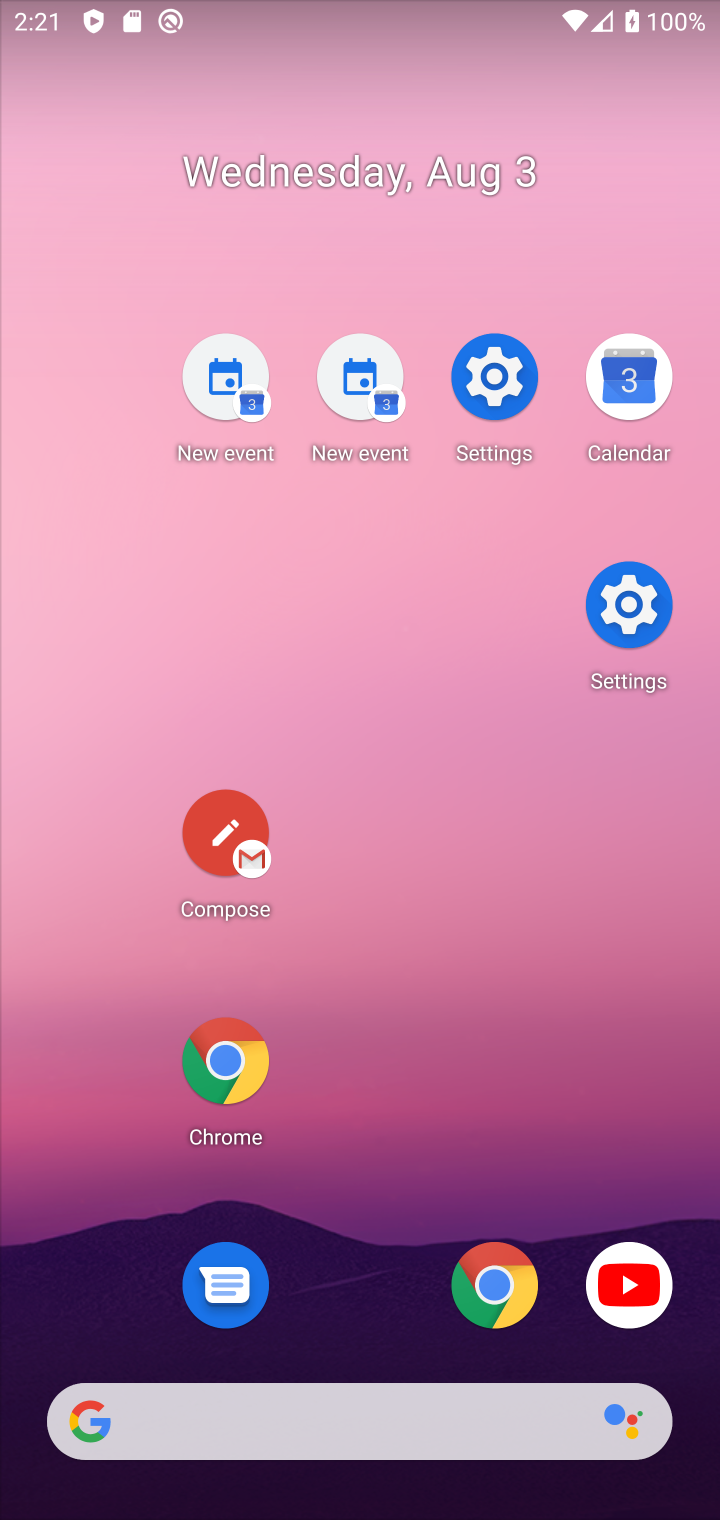
Step 28: press back button
Your task to perform on an android device: Open my contact list Image 29: 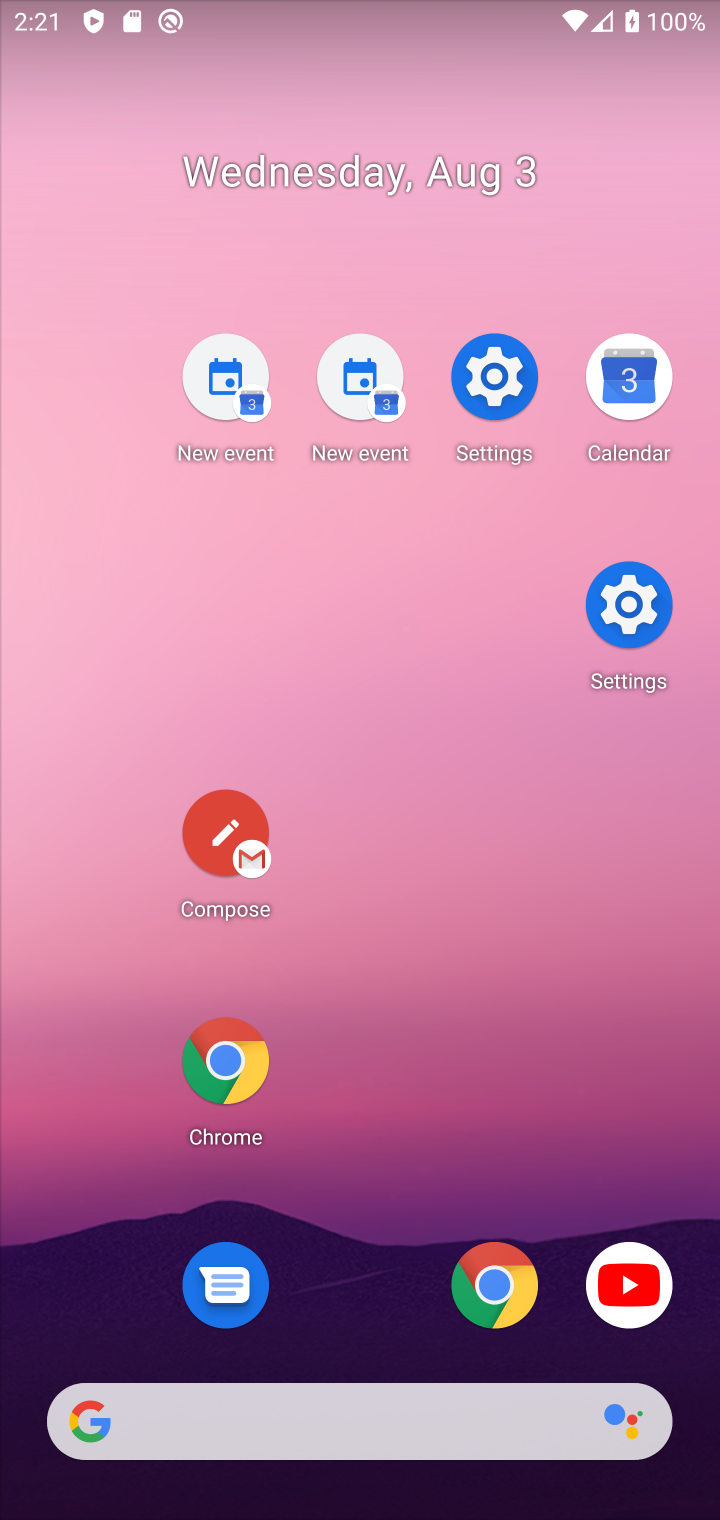
Step 29: drag from (422, 1164) to (324, 224)
Your task to perform on an android device: Open my contact list Image 30: 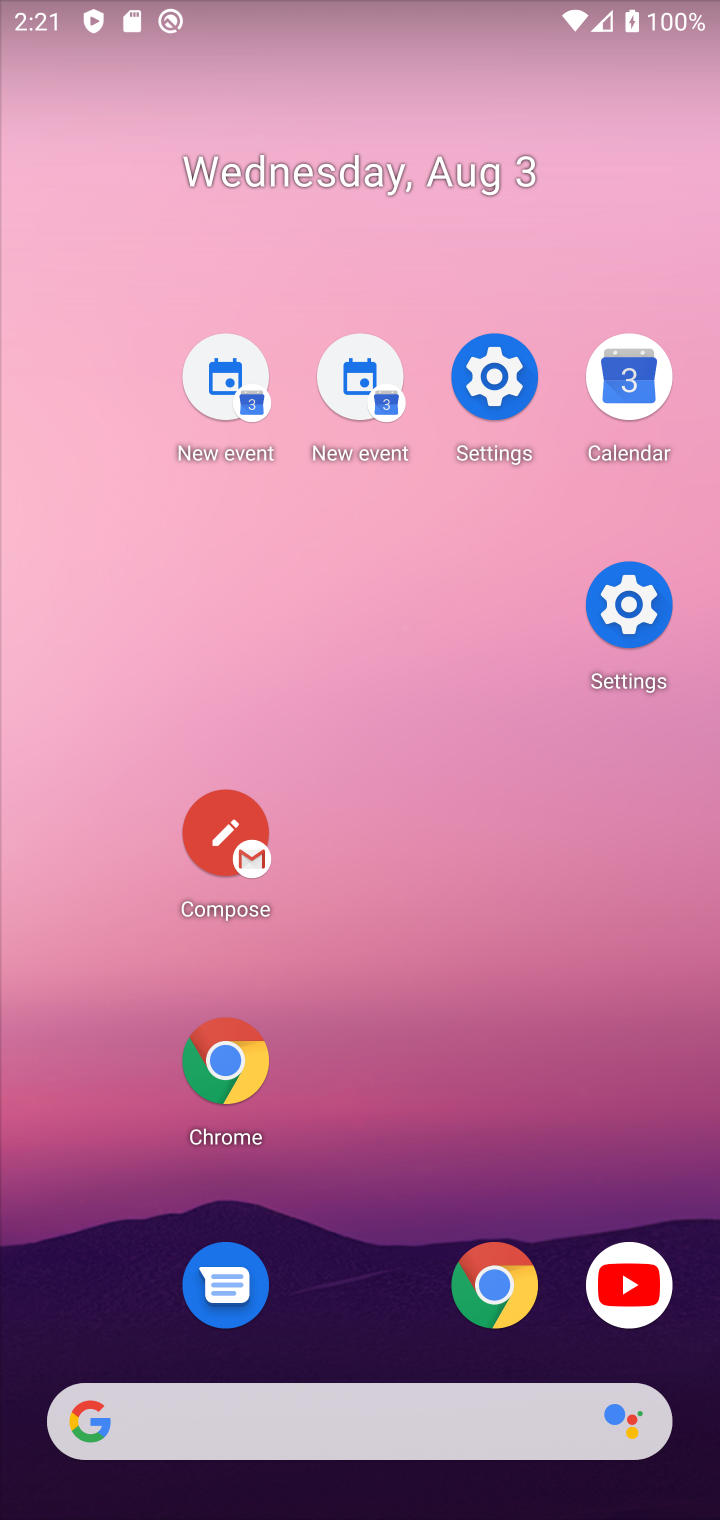
Step 30: drag from (289, 165) to (277, 79)
Your task to perform on an android device: Open my contact list Image 31: 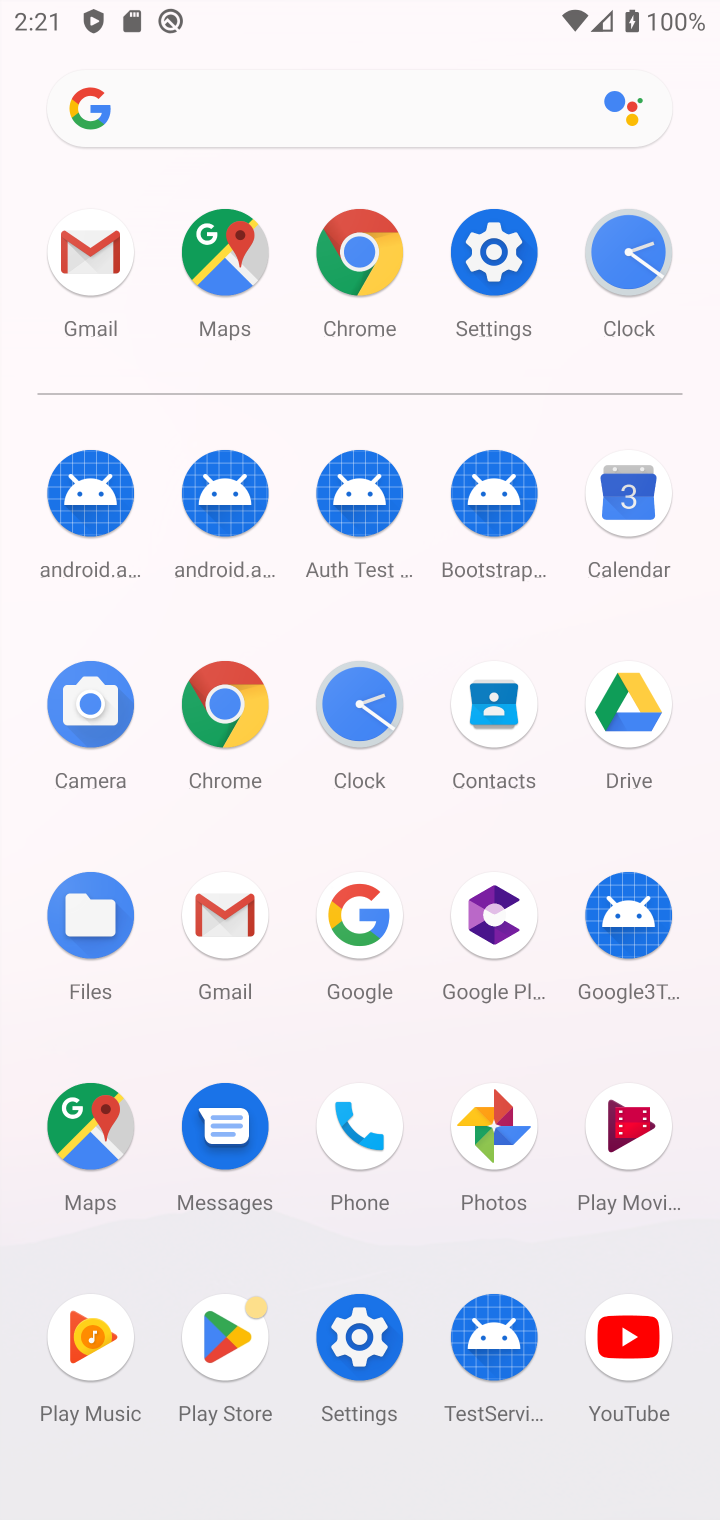
Step 31: click (503, 692)
Your task to perform on an android device: Open my contact list Image 32: 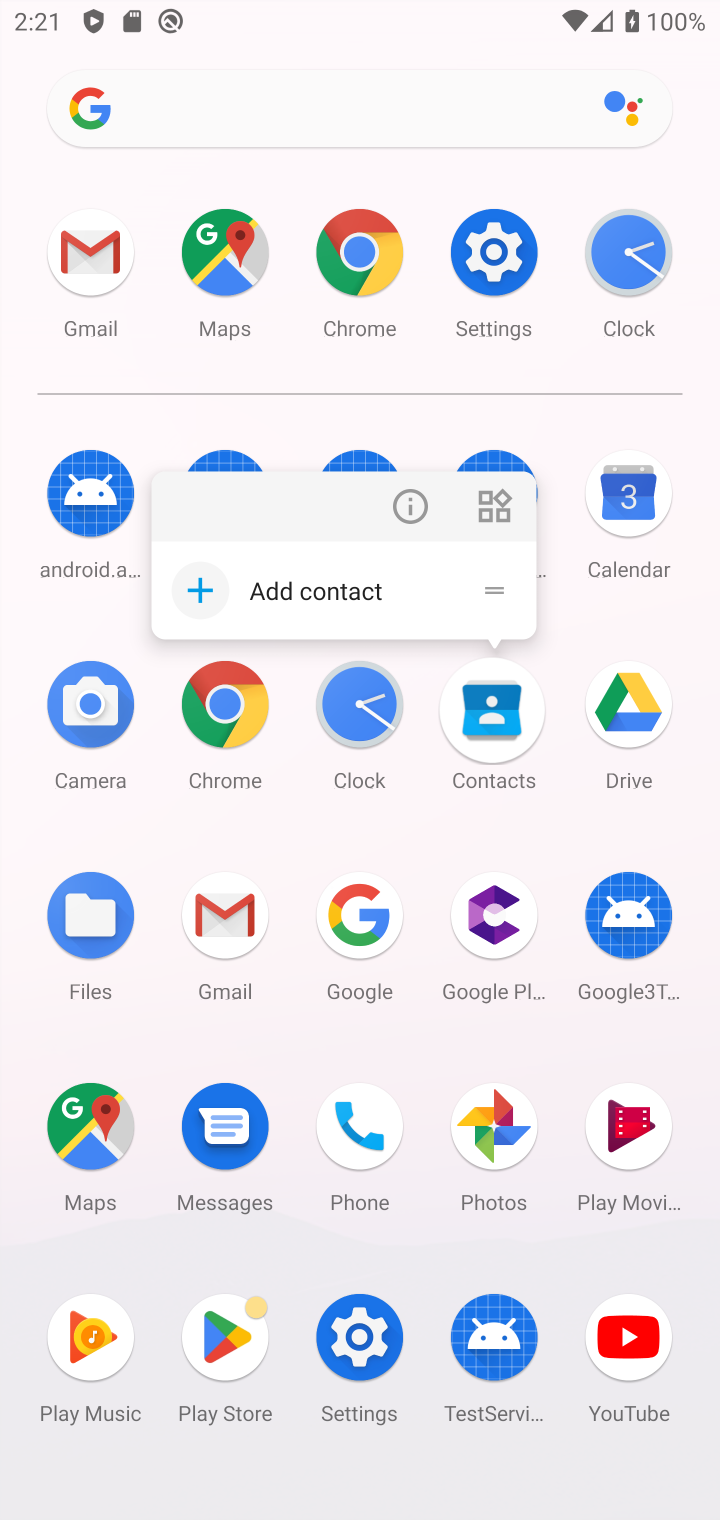
Step 32: click (508, 711)
Your task to perform on an android device: Open my contact list Image 33: 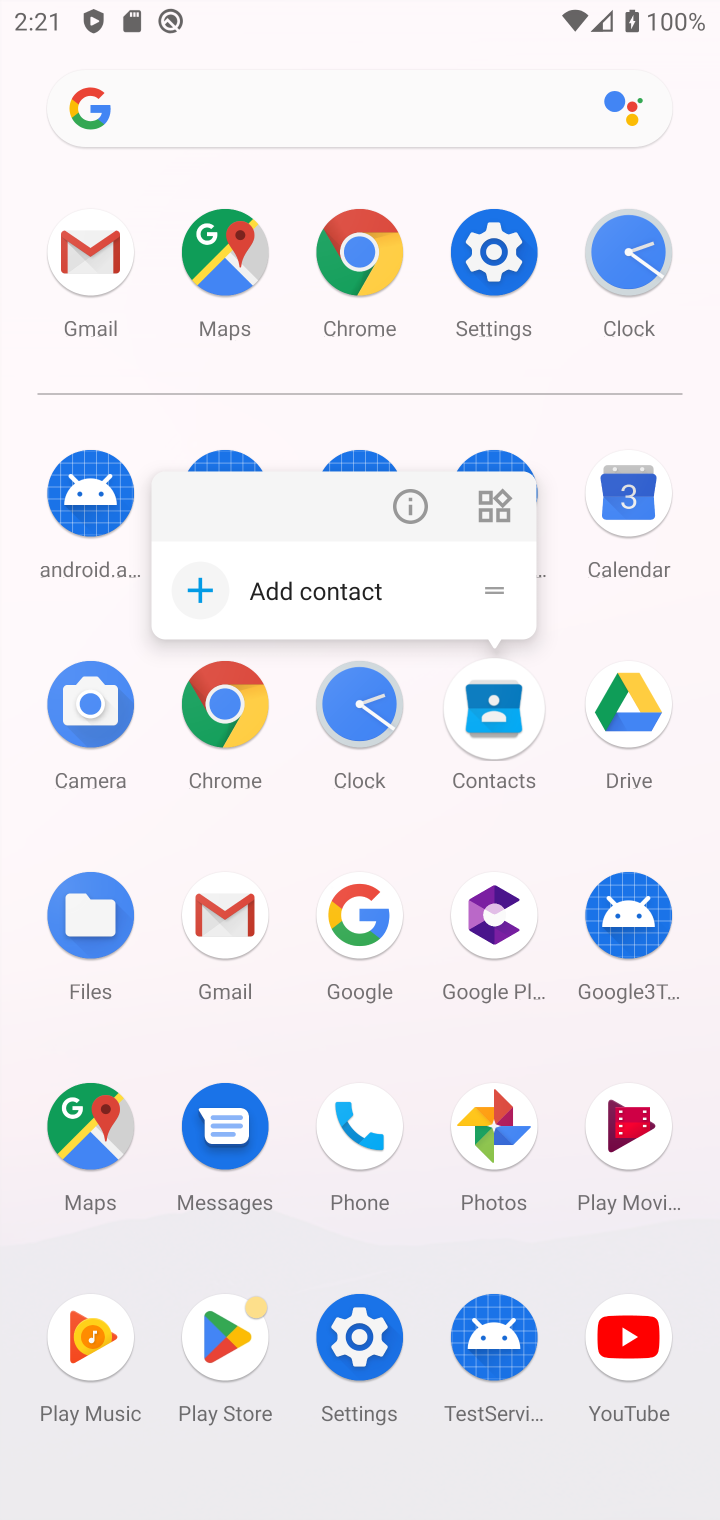
Step 33: click (508, 711)
Your task to perform on an android device: Open my contact list Image 34: 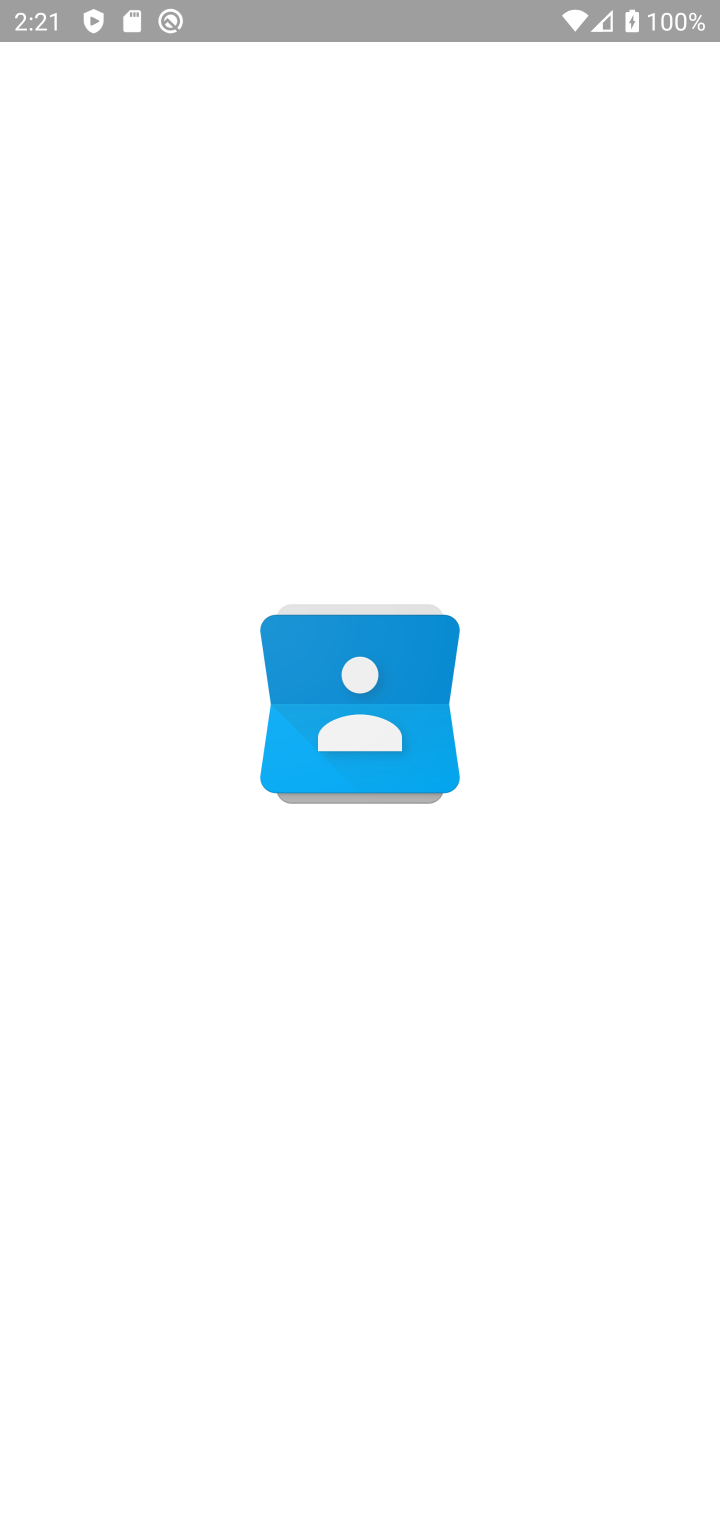
Step 34: click (510, 724)
Your task to perform on an android device: Open my contact list Image 35: 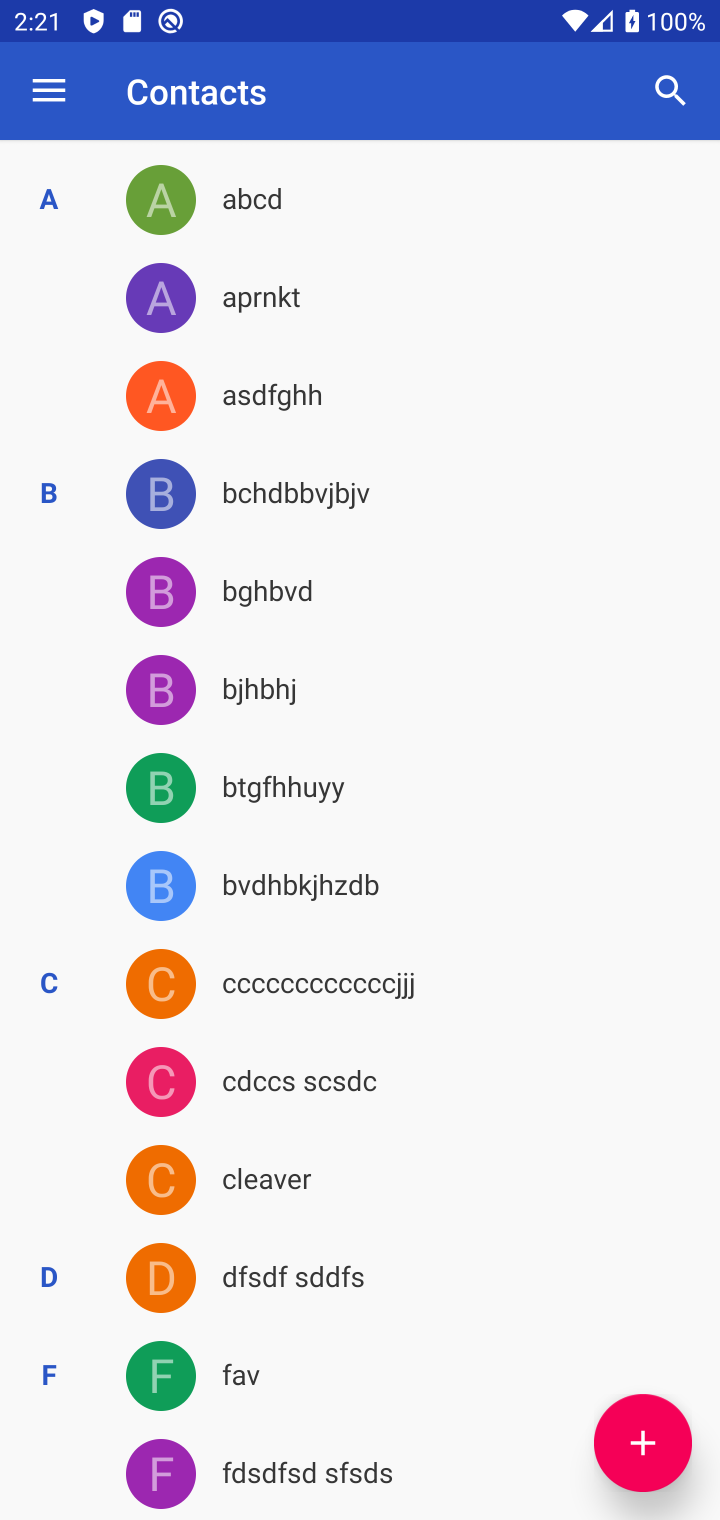
Step 35: drag from (385, 925) to (129, 301)
Your task to perform on an android device: Open my contact list Image 36: 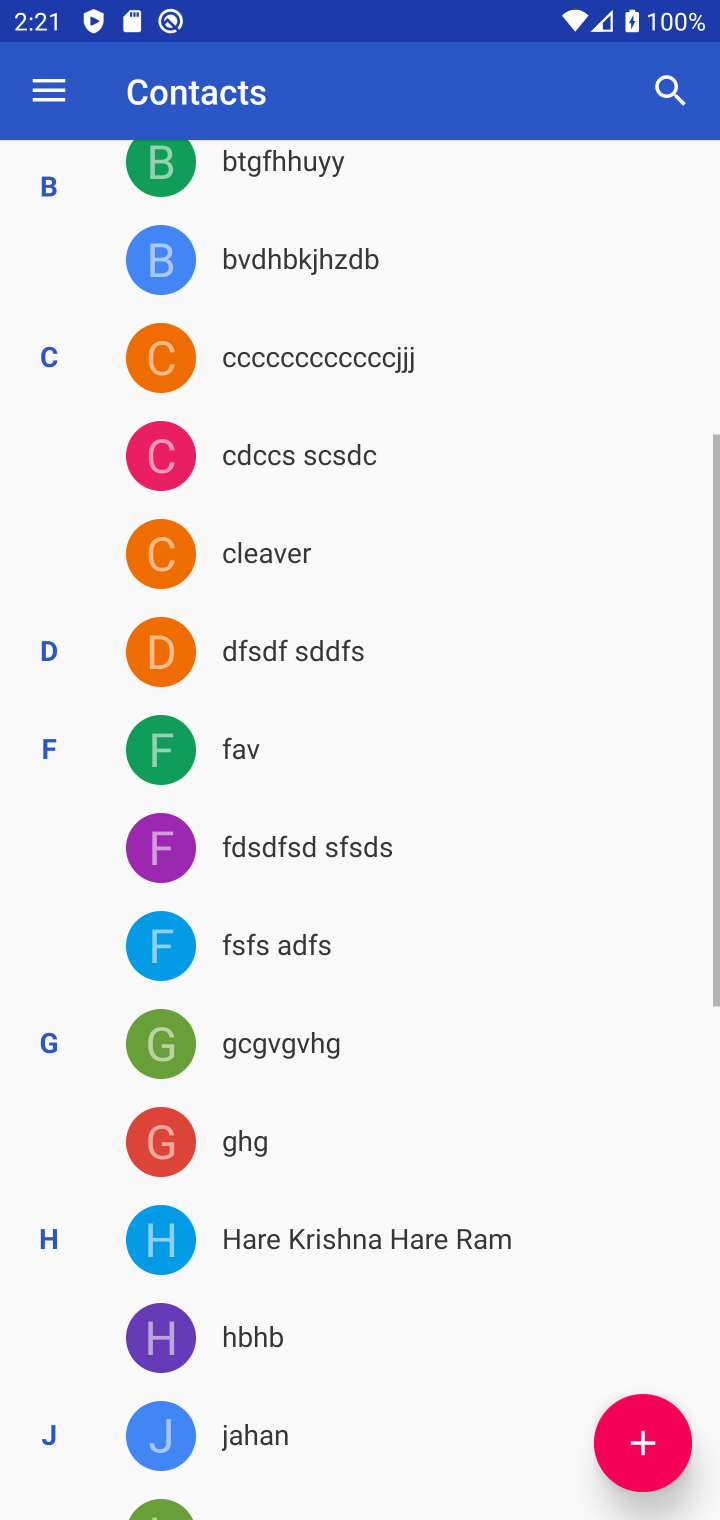
Step 36: drag from (279, 583) to (247, 351)
Your task to perform on an android device: Open my contact list Image 37: 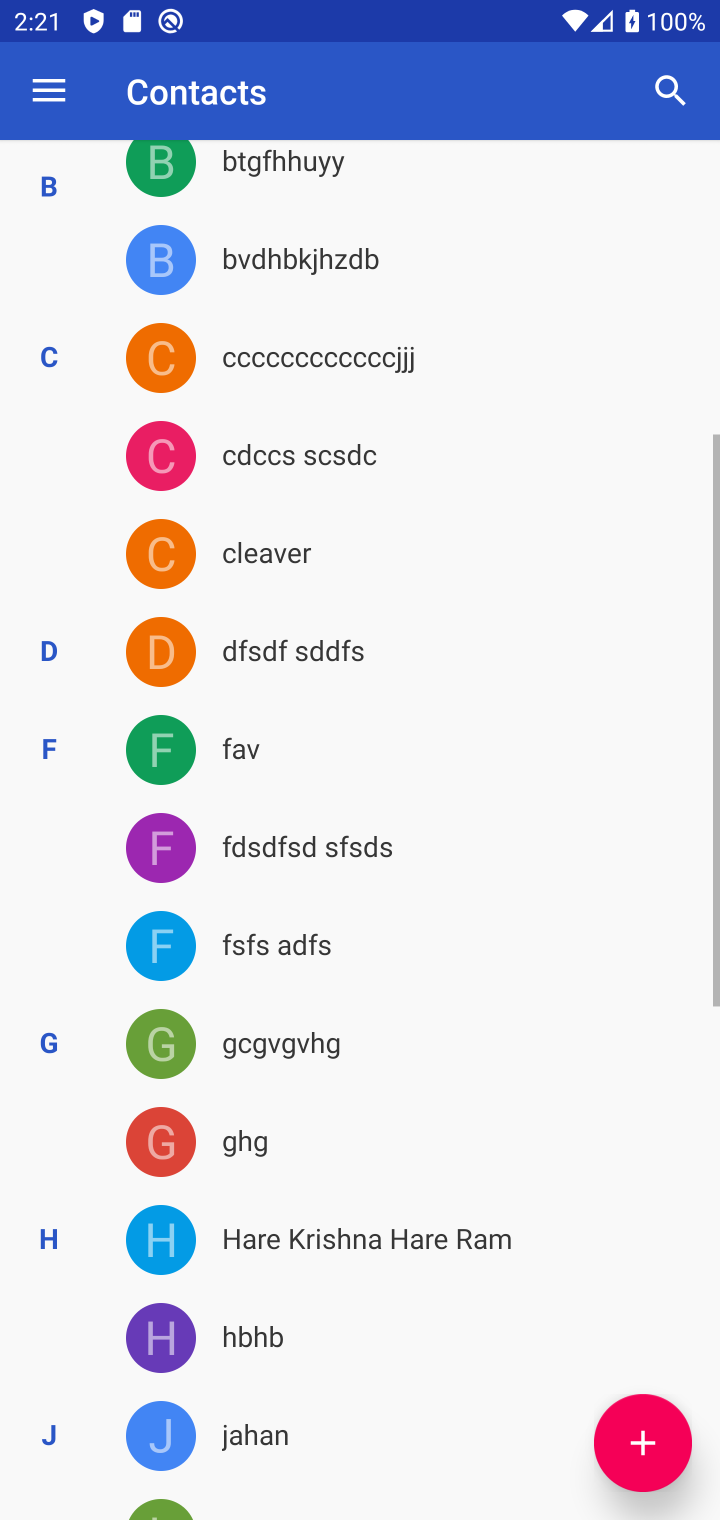
Step 37: drag from (385, 907) to (343, 359)
Your task to perform on an android device: Open my contact list Image 38: 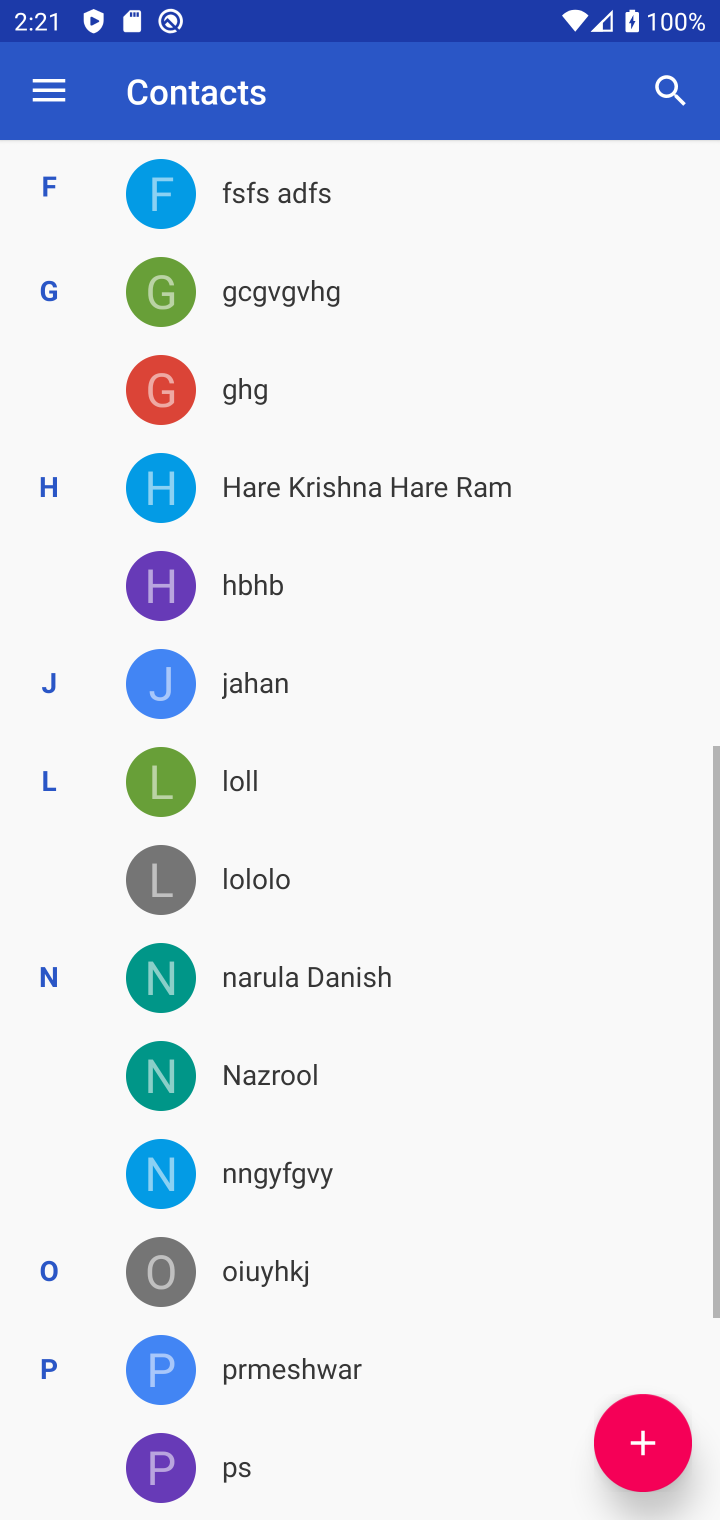
Step 38: drag from (284, 521) to (240, 311)
Your task to perform on an android device: Open my contact list Image 39: 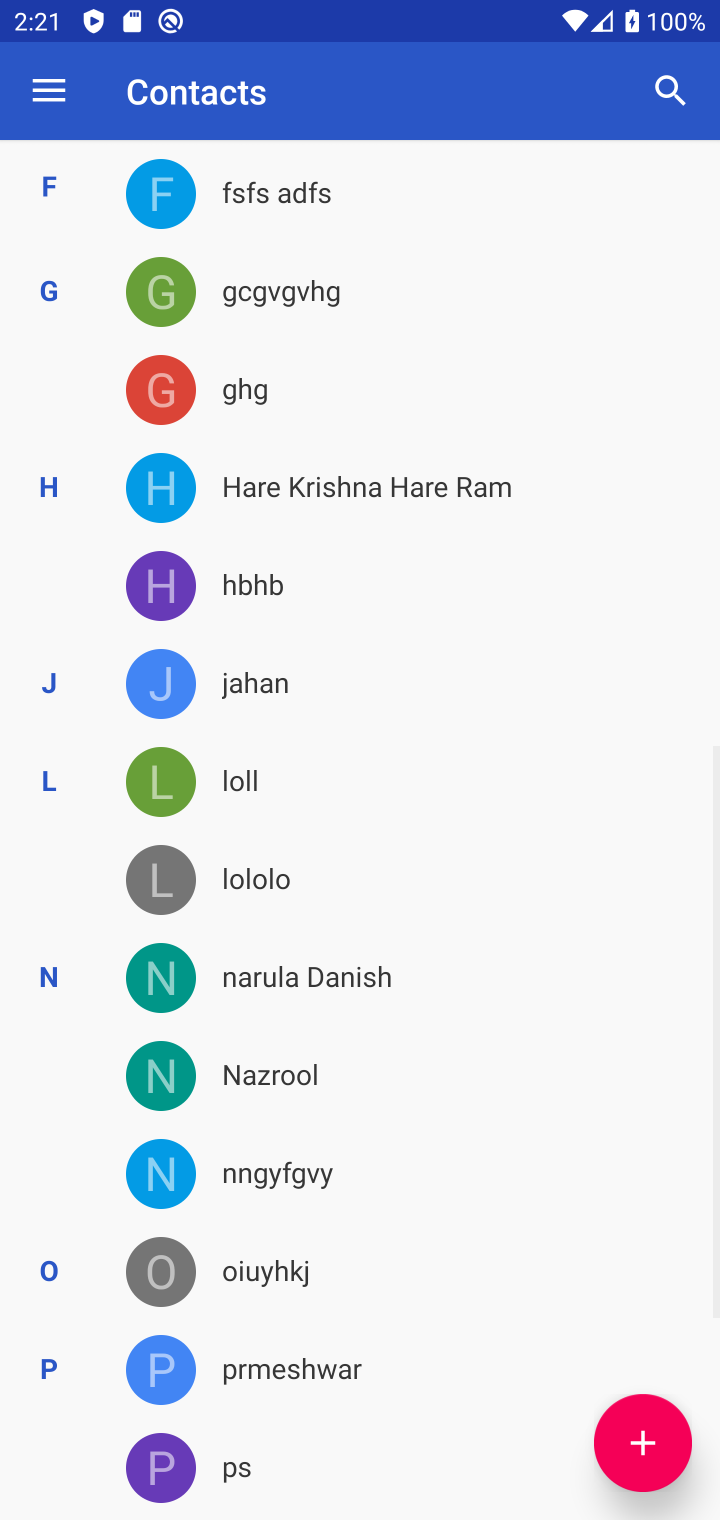
Step 39: drag from (335, 647) to (319, 497)
Your task to perform on an android device: Open my contact list Image 40: 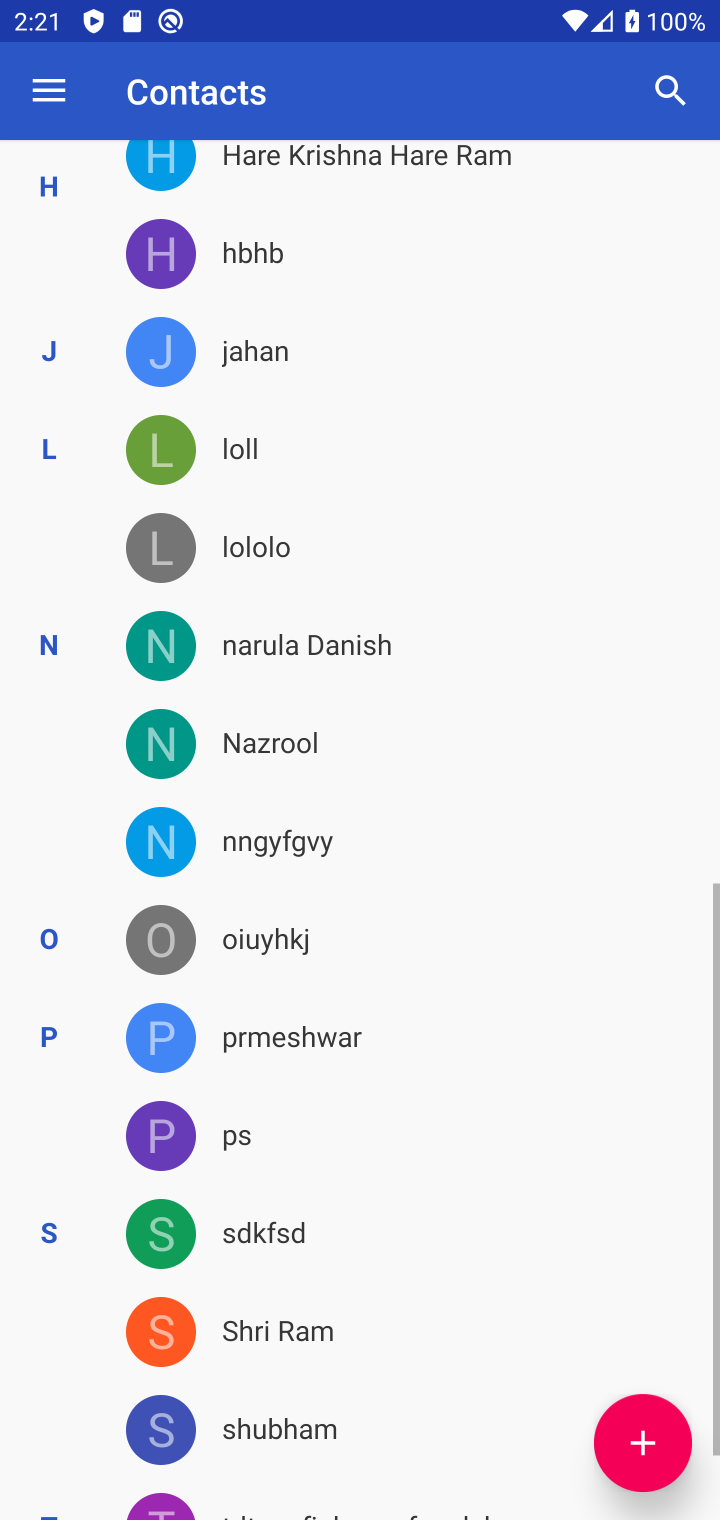
Step 40: click (443, 380)
Your task to perform on an android device: Open my contact list Image 41: 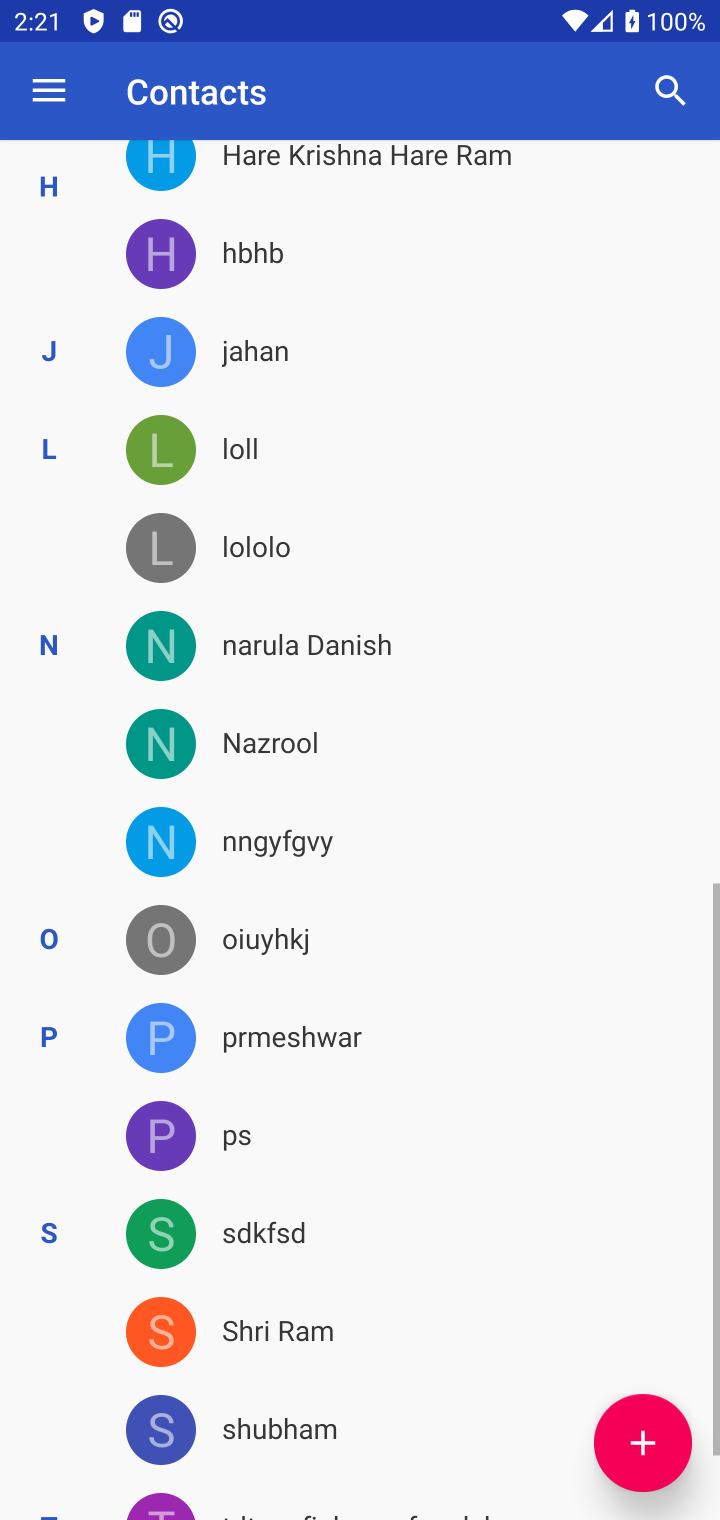
Step 41: click (292, 258)
Your task to perform on an android device: Open my contact list Image 42: 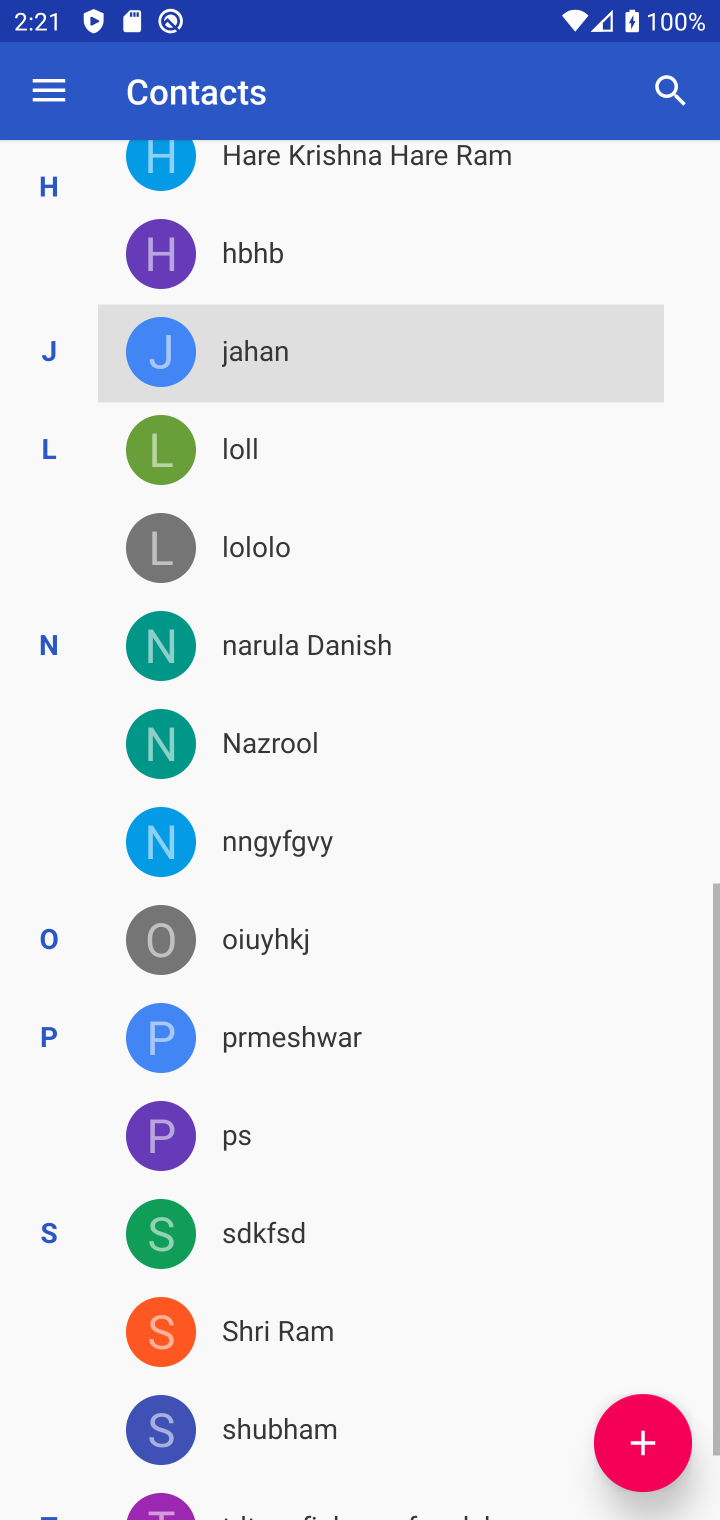
Step 42: drag from (299, 978) to (443, 437)
Your task to perform on an android device: Open my contact list Image 43: 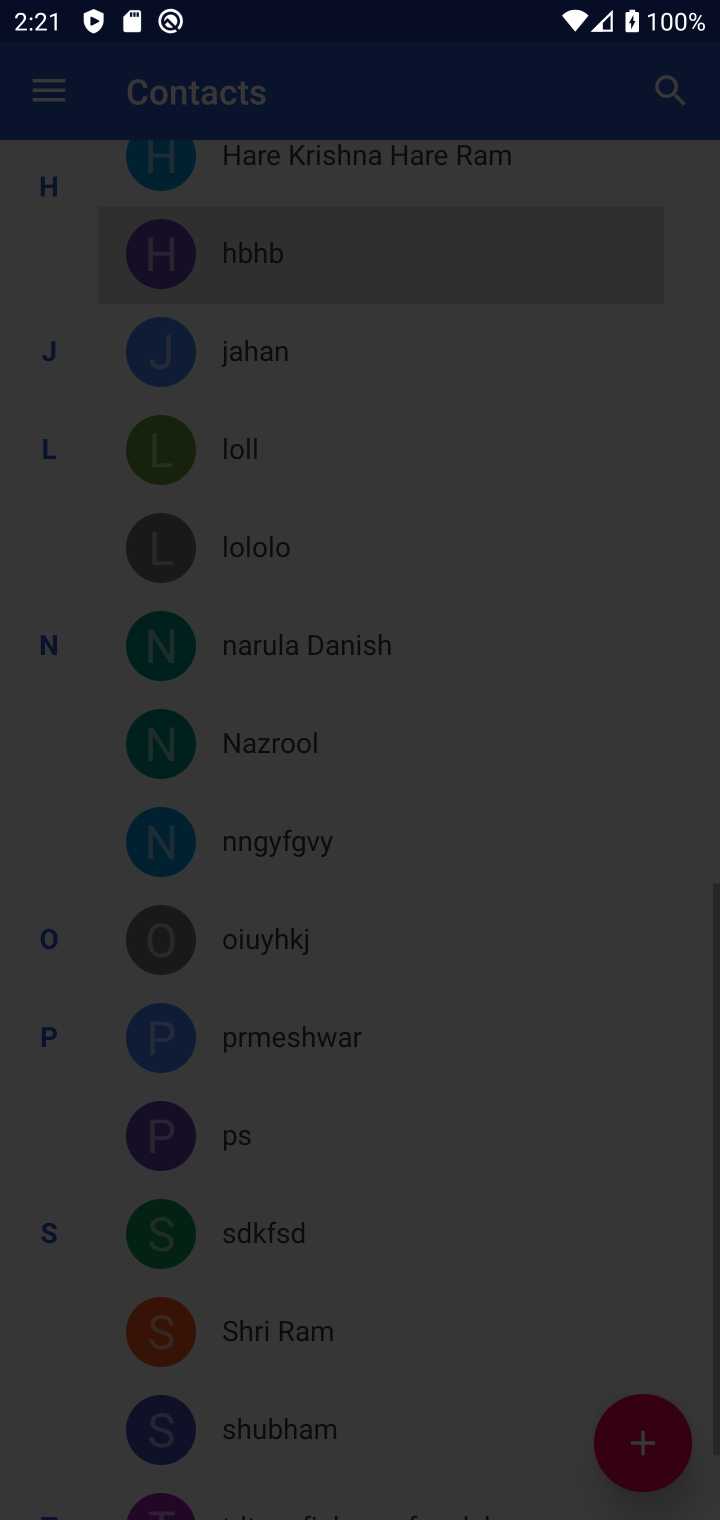
Step 43: drag from (387, 327) to (384, 169)
Your task to perform on an android device: Open my contact list Image 44: 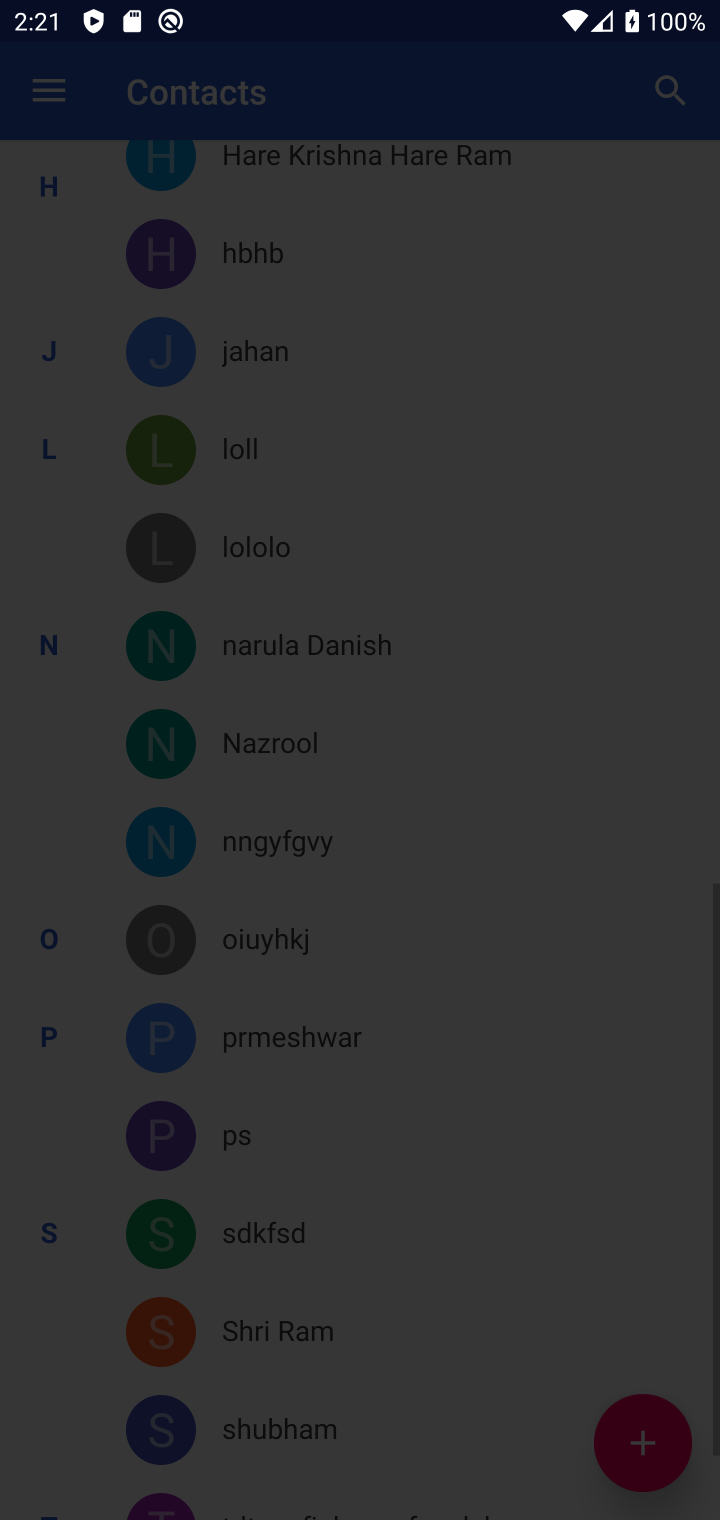
Step 44: click (434, 393)
Your task to perform on an android device: Open my contact list Image 45: 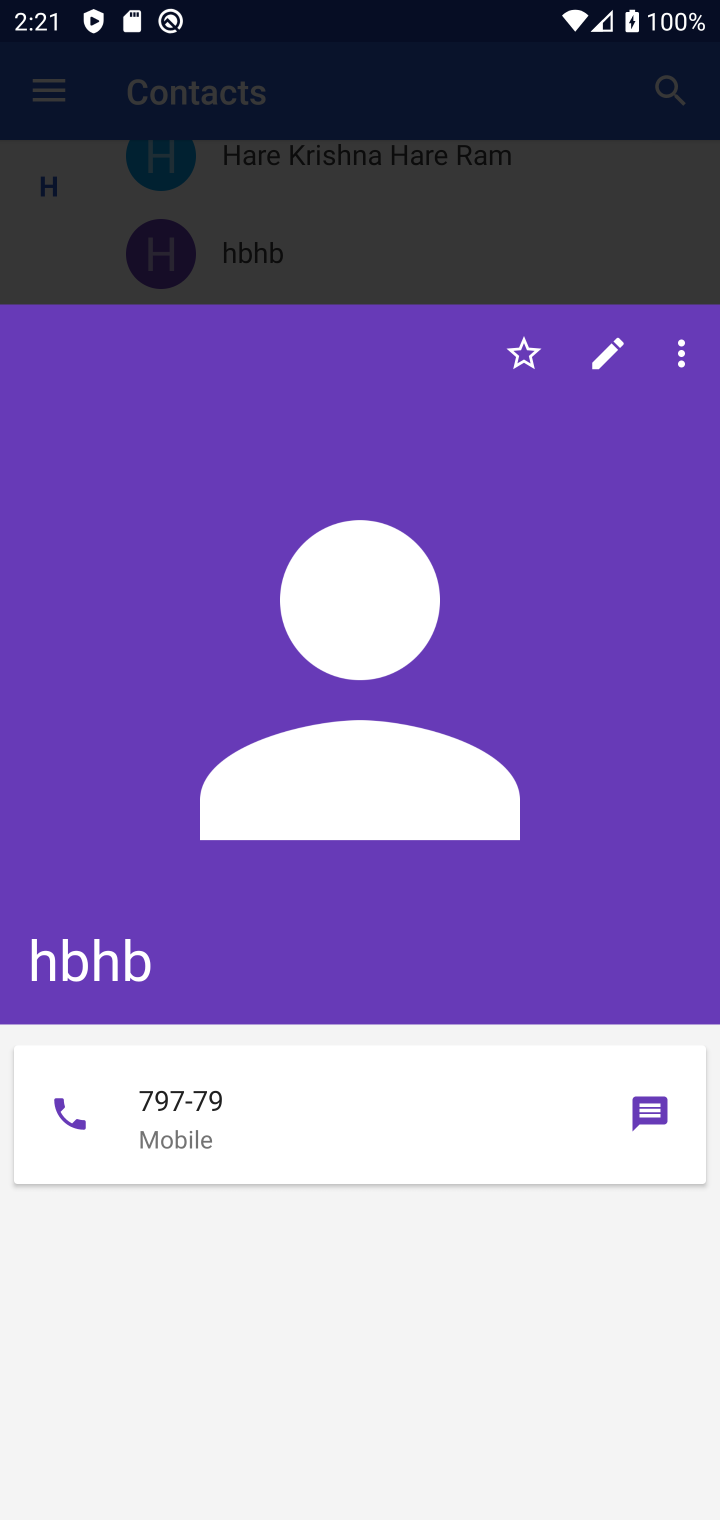
Step 45: task complete